Your task to perform on an android device: snooze an email in the gmail app Image 0: 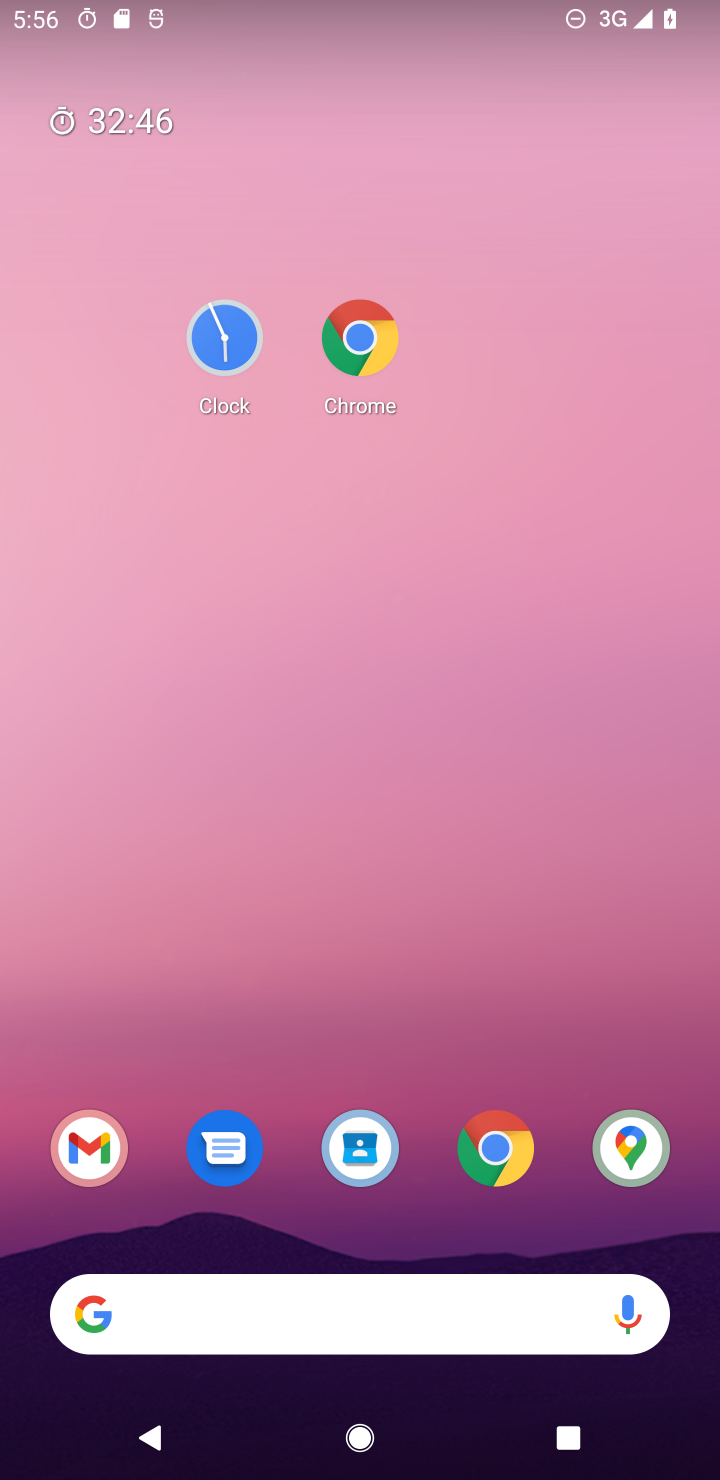
Step 0: drag from (295, 795) to (295, 538)
Your task to perform on an android device: snooze an email in the gmail app Image 1: 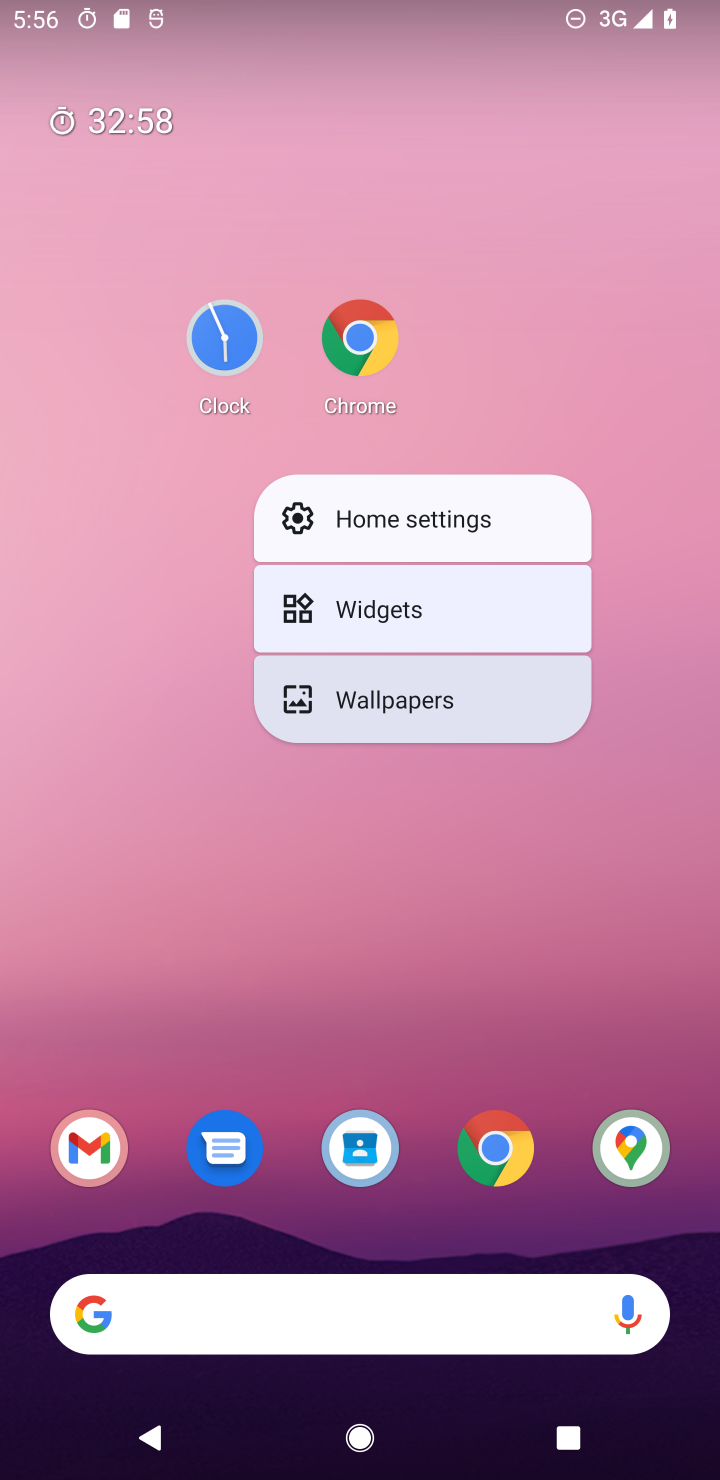
Step 1: drag from (281, 1164) to (341, 726)
Your task to perform on an android device: snooze an email in the gmail app Image 2: 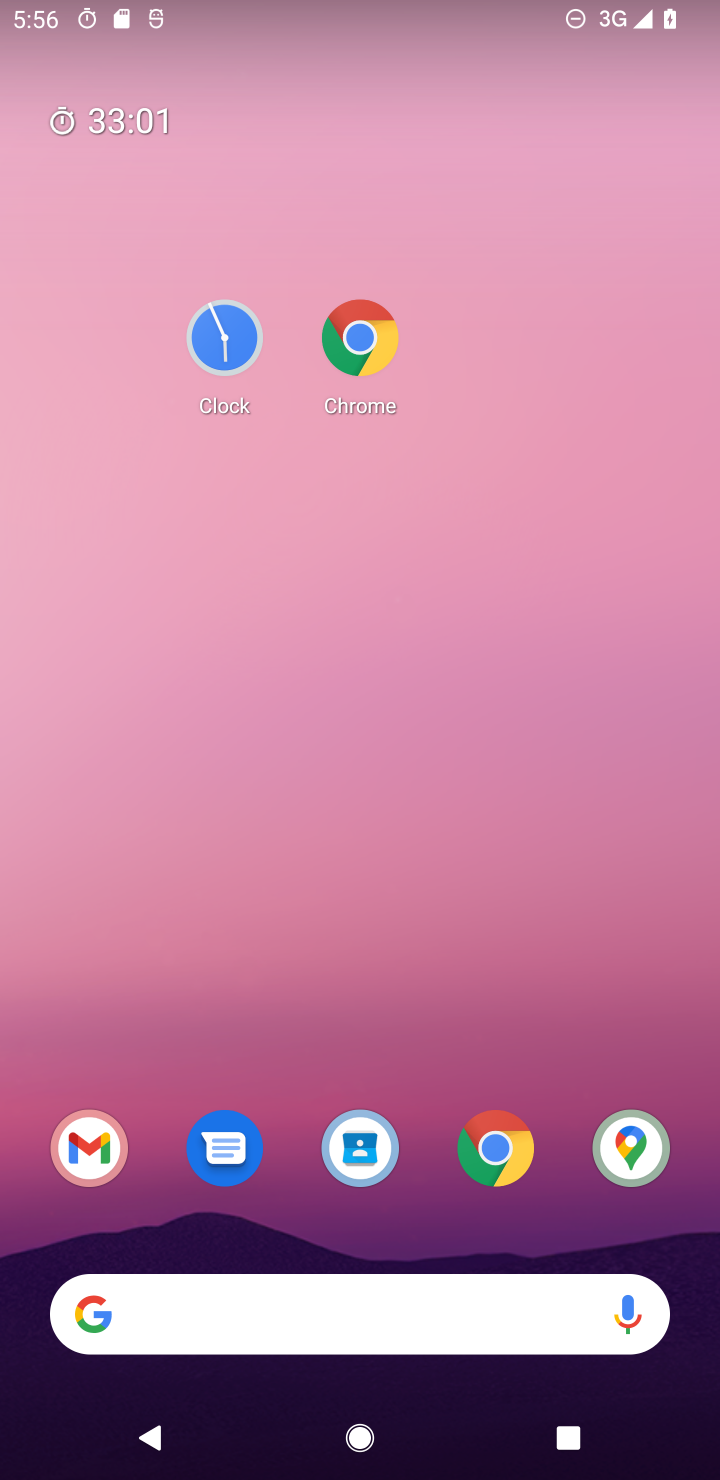
Step 2: drag from (399, 1214) to (383, 668)
Your task to perform on an android device: snooze an email in the gmail app Image 3: 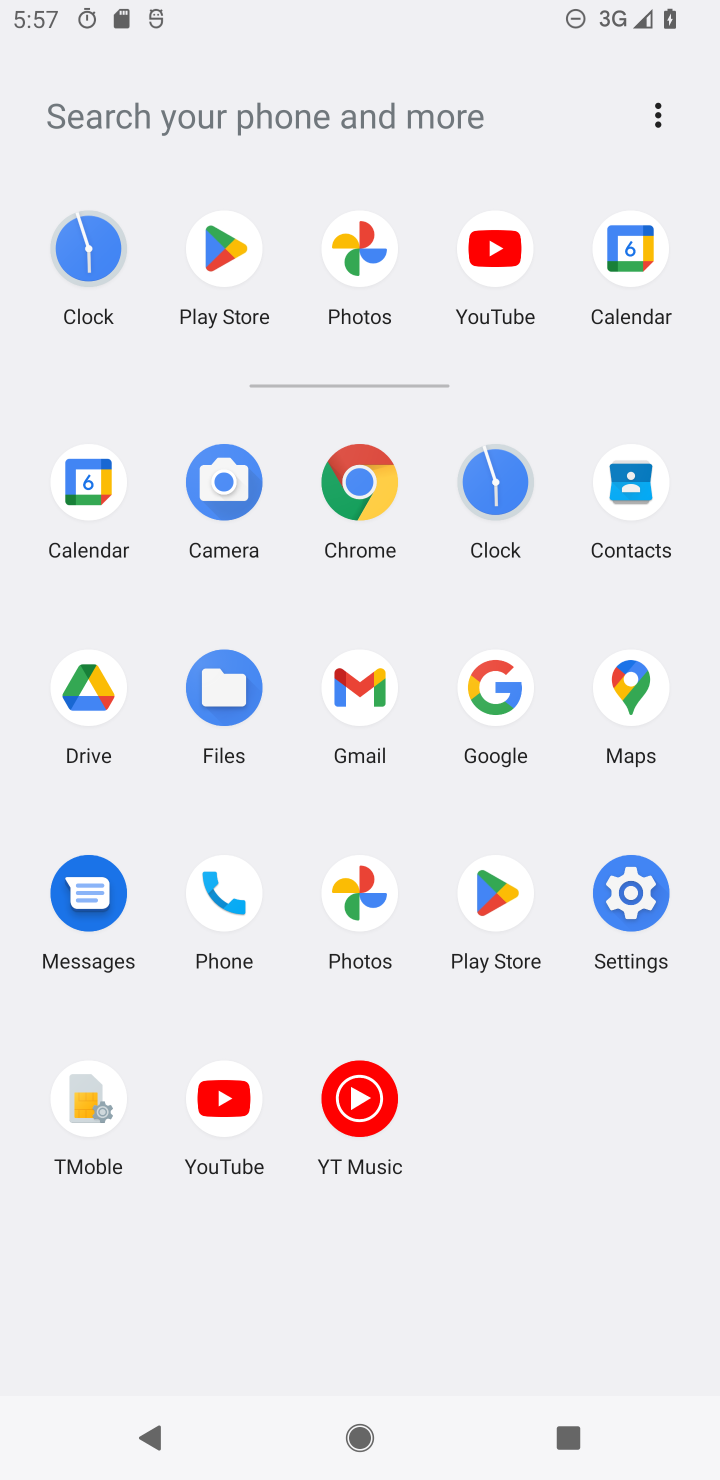
Step 3: click (338, 699)
Your task to perform on an android device: snooze an email in the gmail app Image 4: 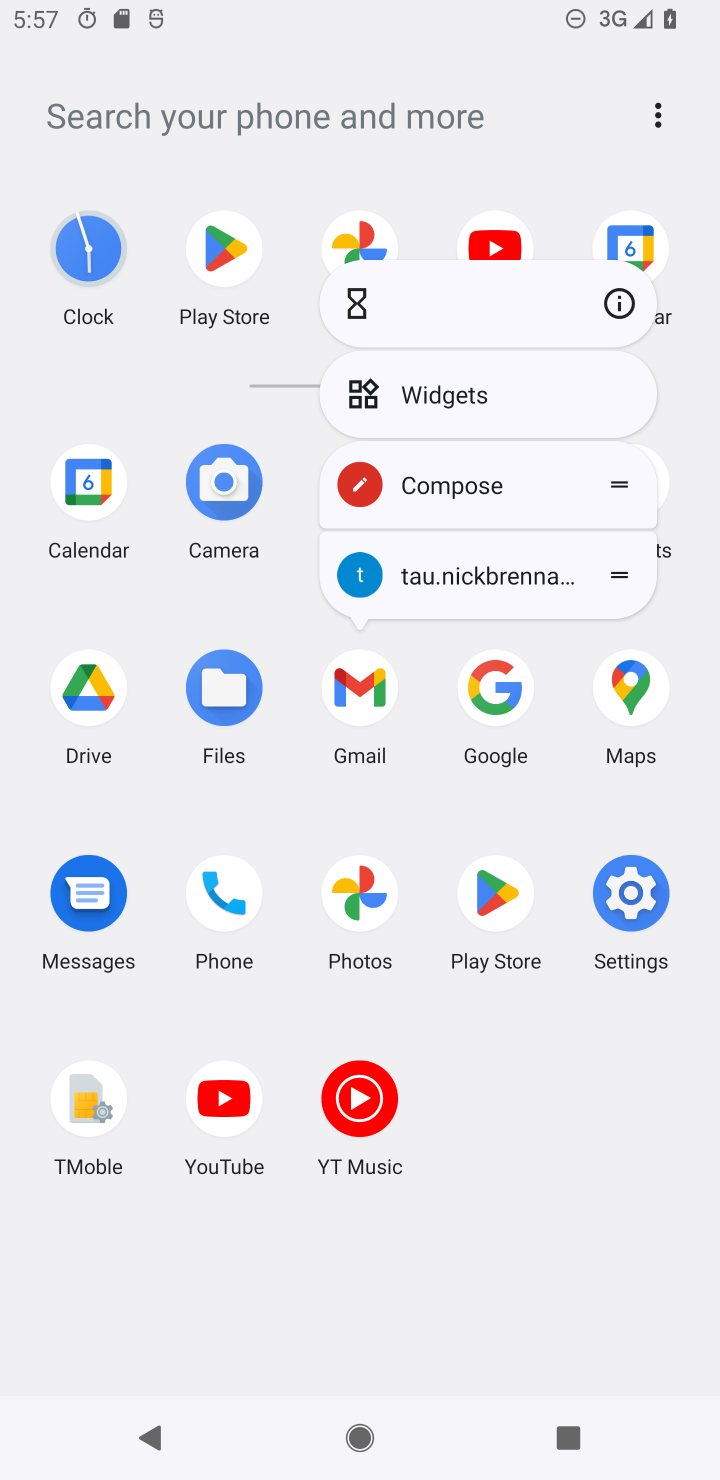
Step 4: click (605, 301)
Your task to perform on an android device: snooze an email in the gmail app Image 5: 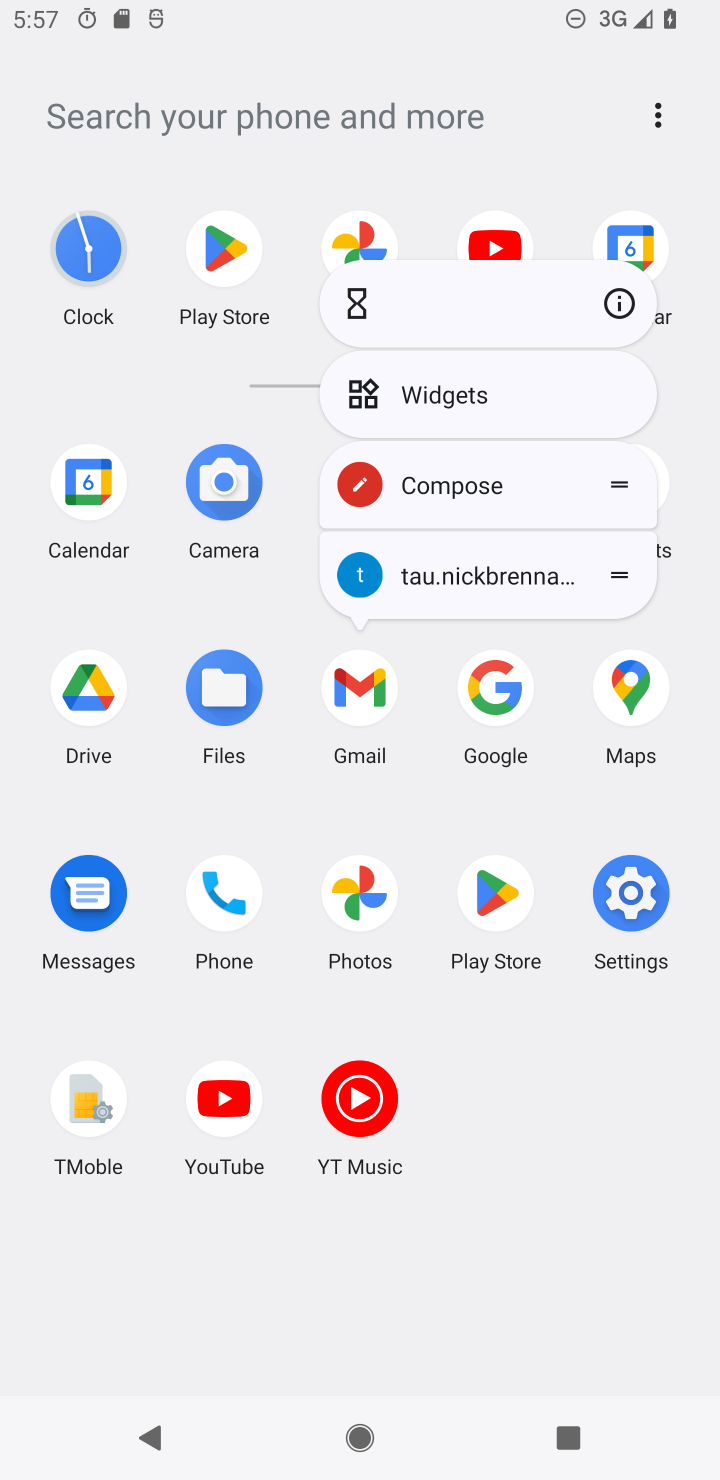
Step 5: click (607, 300)
Your task to perform on an android device: snooze an email in the gmail app Image 6: 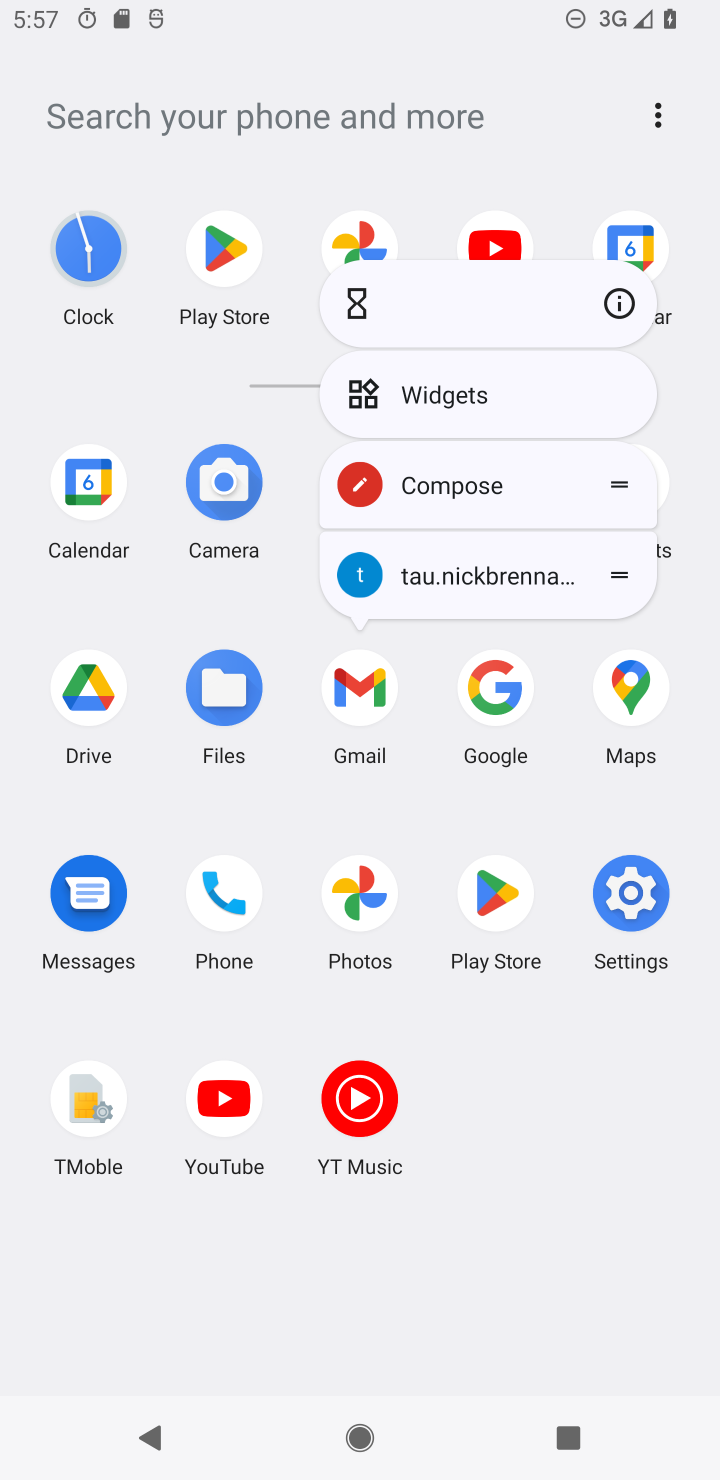
Step 6: click (619, 305)
Your task to perform on an android device: snooze an email in the gmail app Image 7: 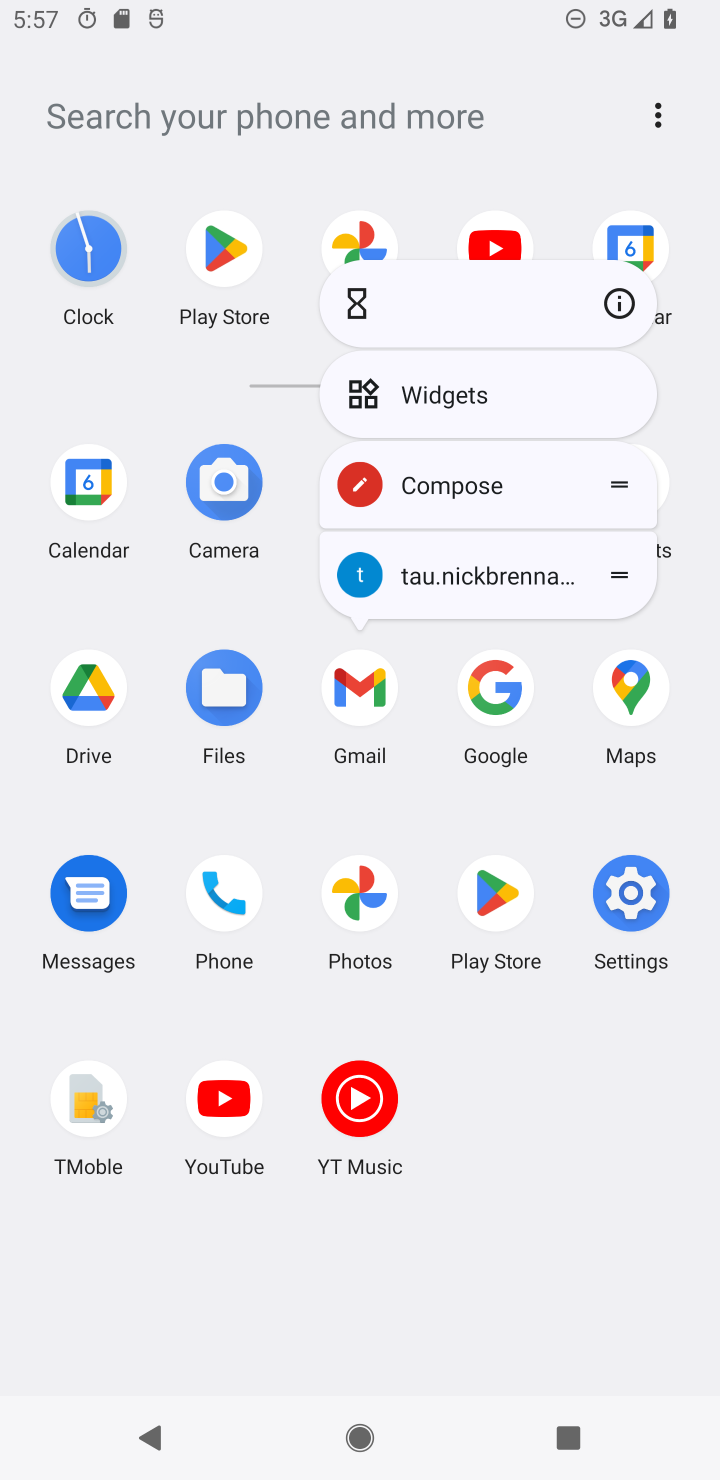
Step 7: click (619, 305)
Your task to perform on an android device: snooze an email in the gmail app Image 8: 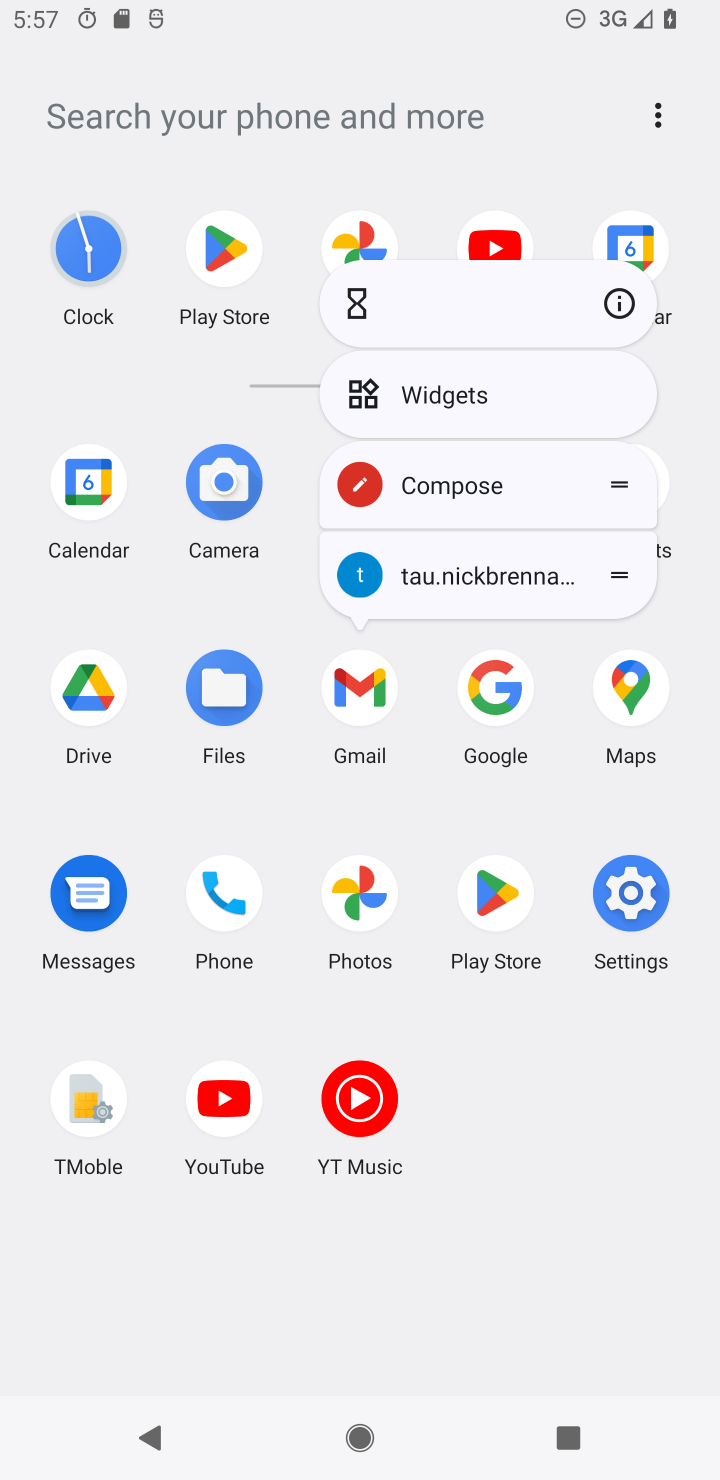
Step 8: click (619, 305)
Your task to perform on an android device: snooze an email in the gmail app Image 9: 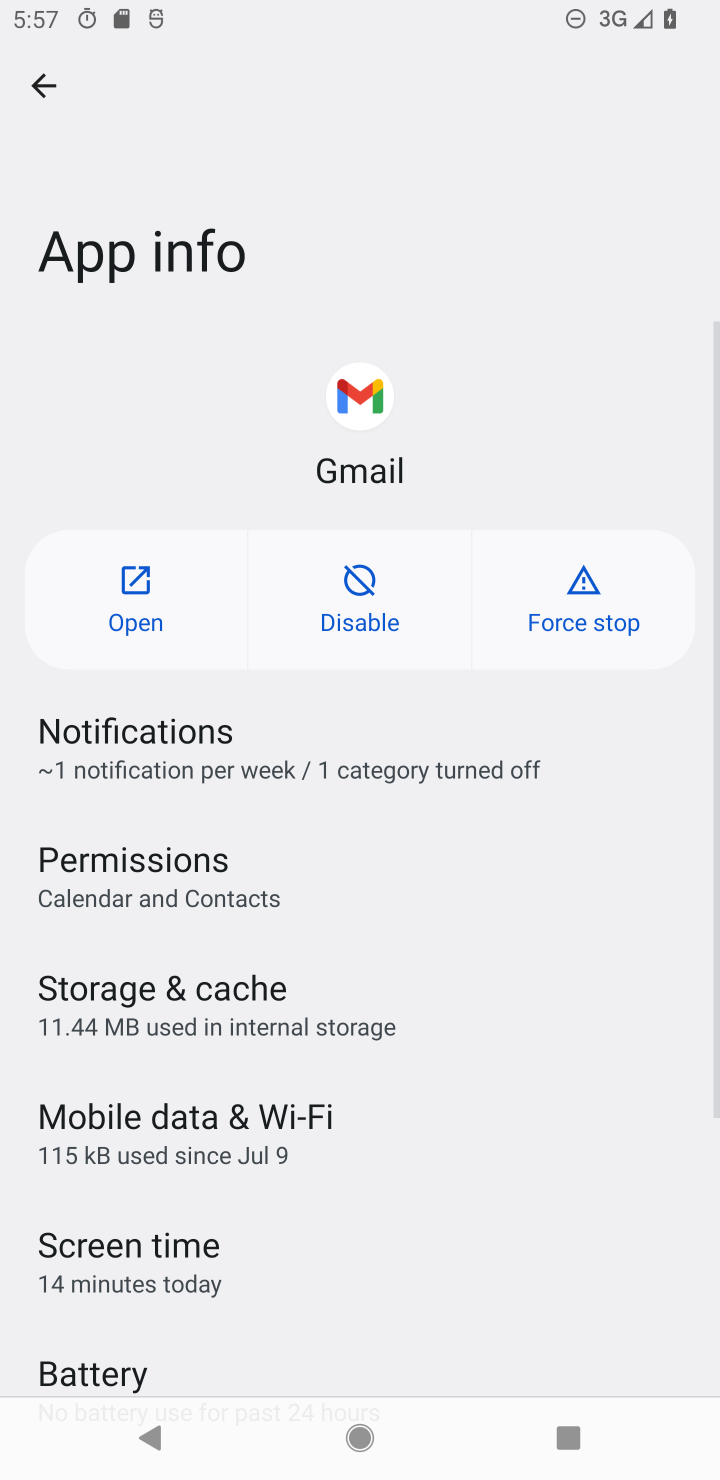
Step 9: click (124, 604)
Your task to perform on an android device: snooze an email in the gmail app Image 10: 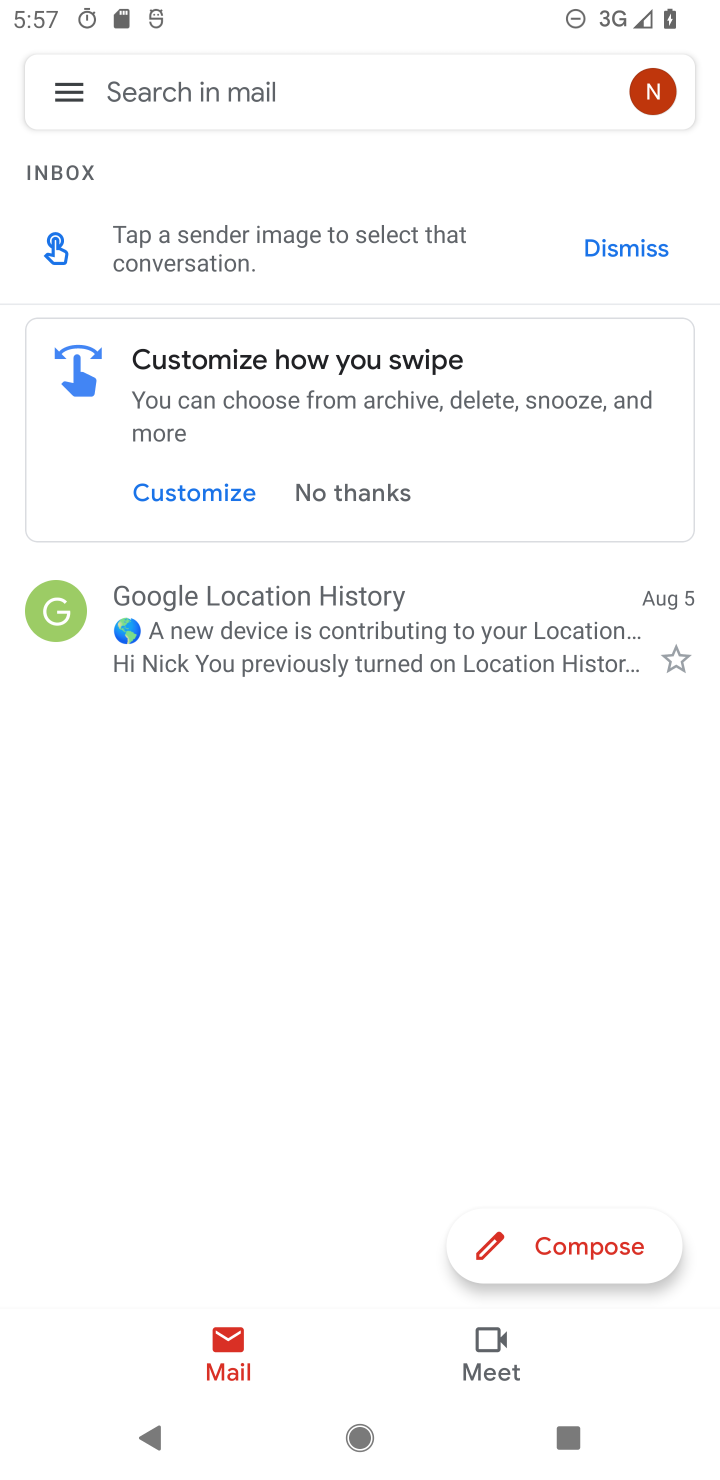
Step 10: drag from (430, 1037) to (634, 444)
Your task to perform on an android device: snooze an email in the gmail app Image 11: 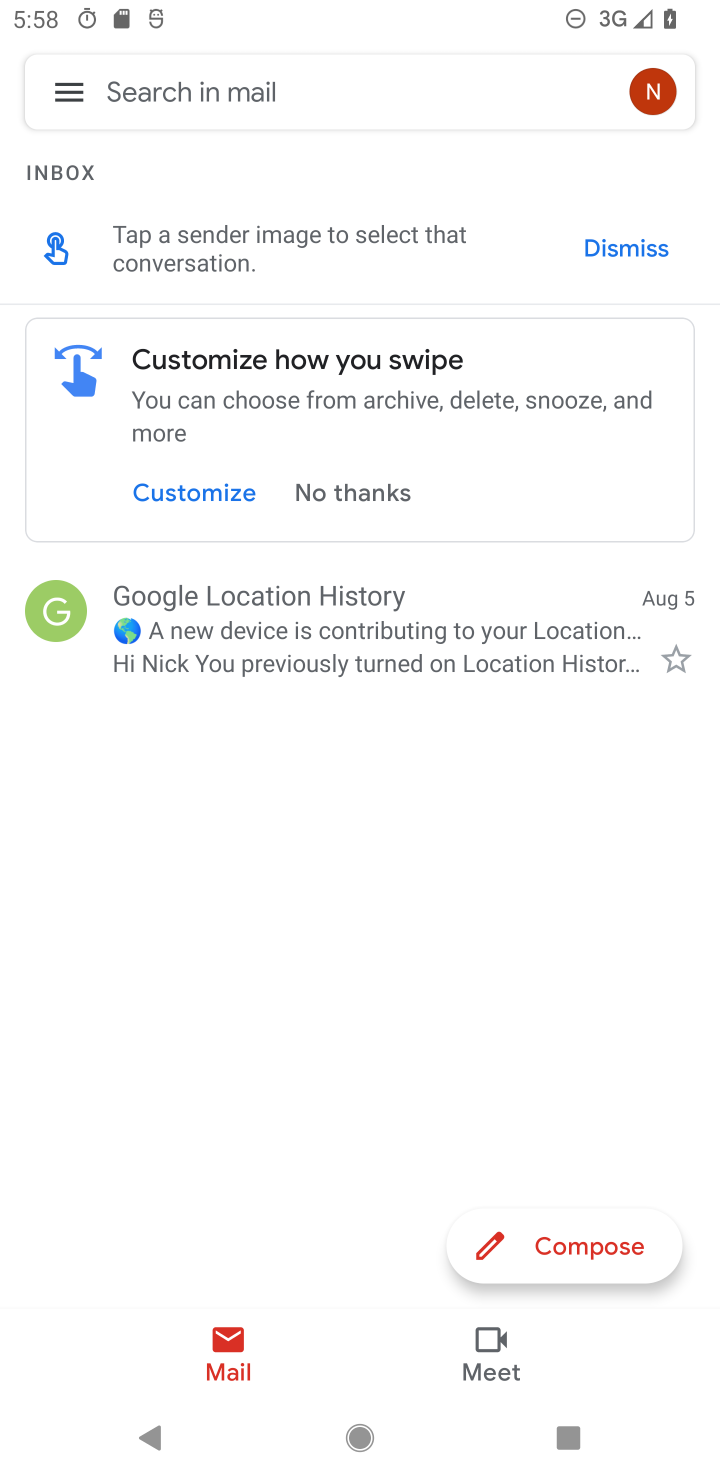
Step 11: click (67, 105)
Your task to perform on an android device: snooze an email in the gmail app Image 12: 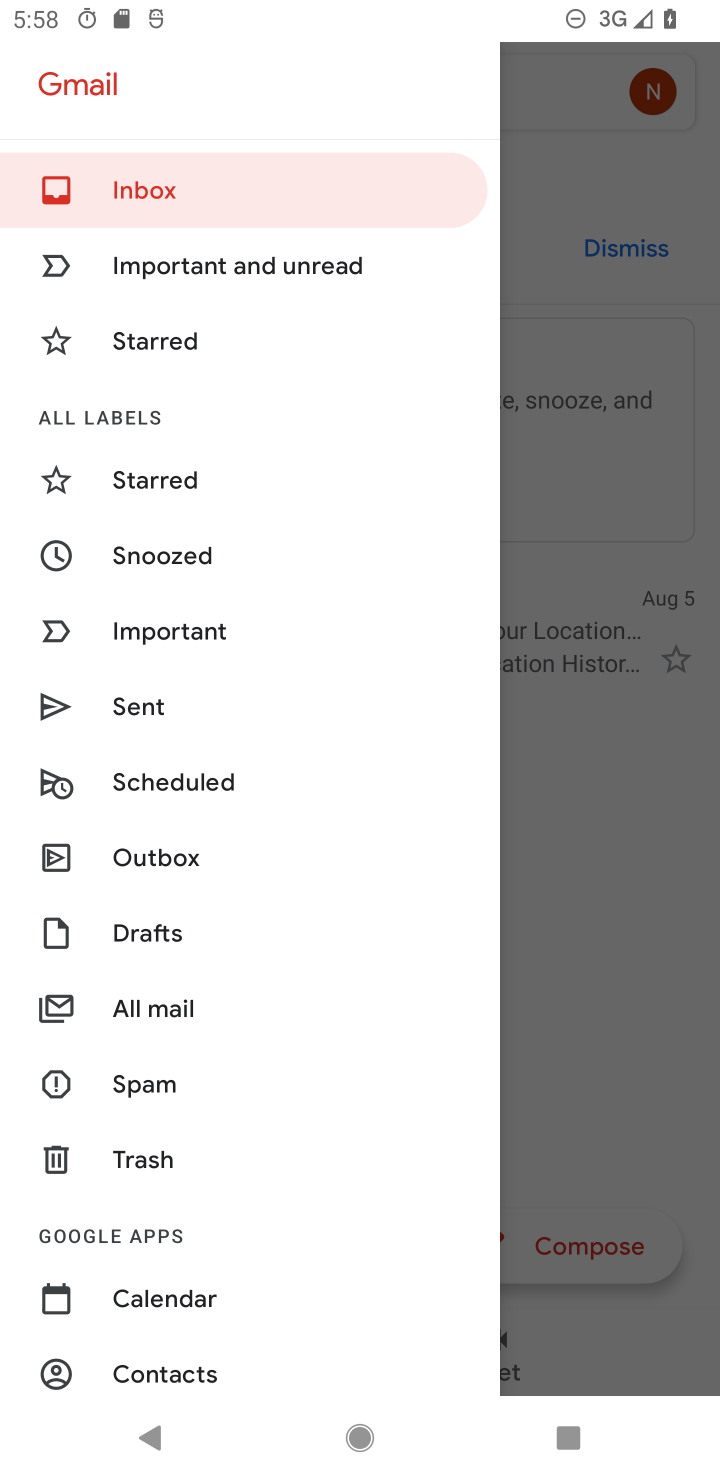
Step 12: drag from (288, 1232) to (443, 313)
Your task to perform on an android device: snooze an email in the gmail app Image 13: 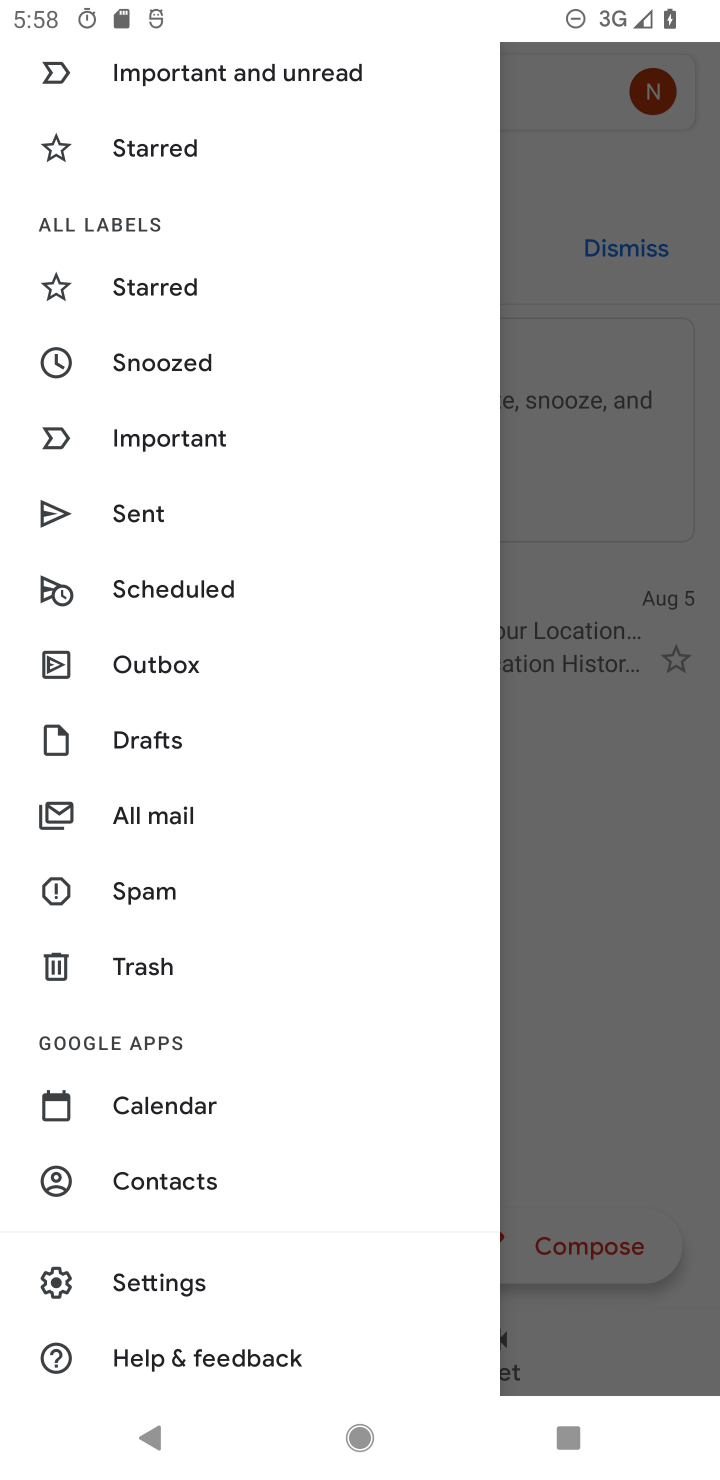
Step 13: drag from (245, 1228) to (272, 620)
Your task to perform on an android device: snooze an email in the gmail app Image 14: 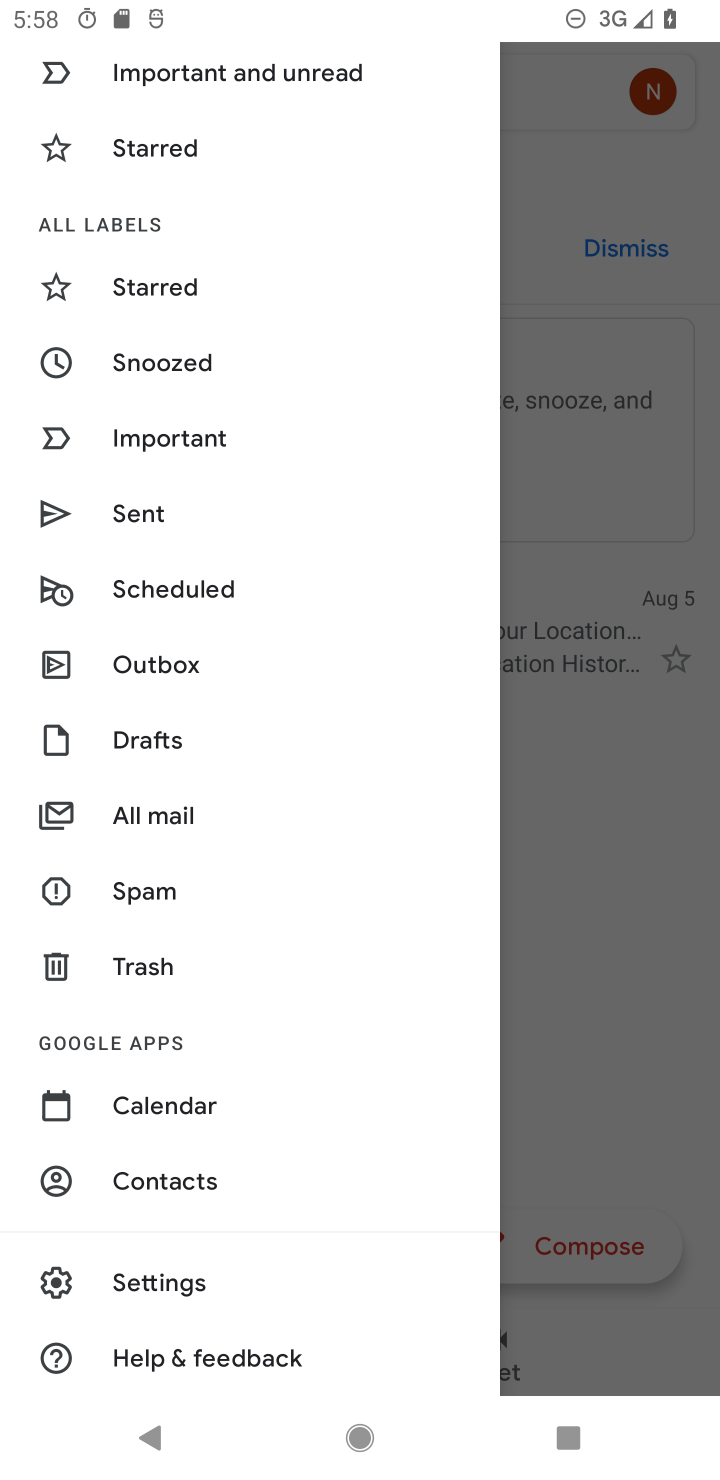
Step 14: drag from (230, 1250) to (295, 682)
Your task to perform on an android device: snooze an email in the gmail app Image 15: 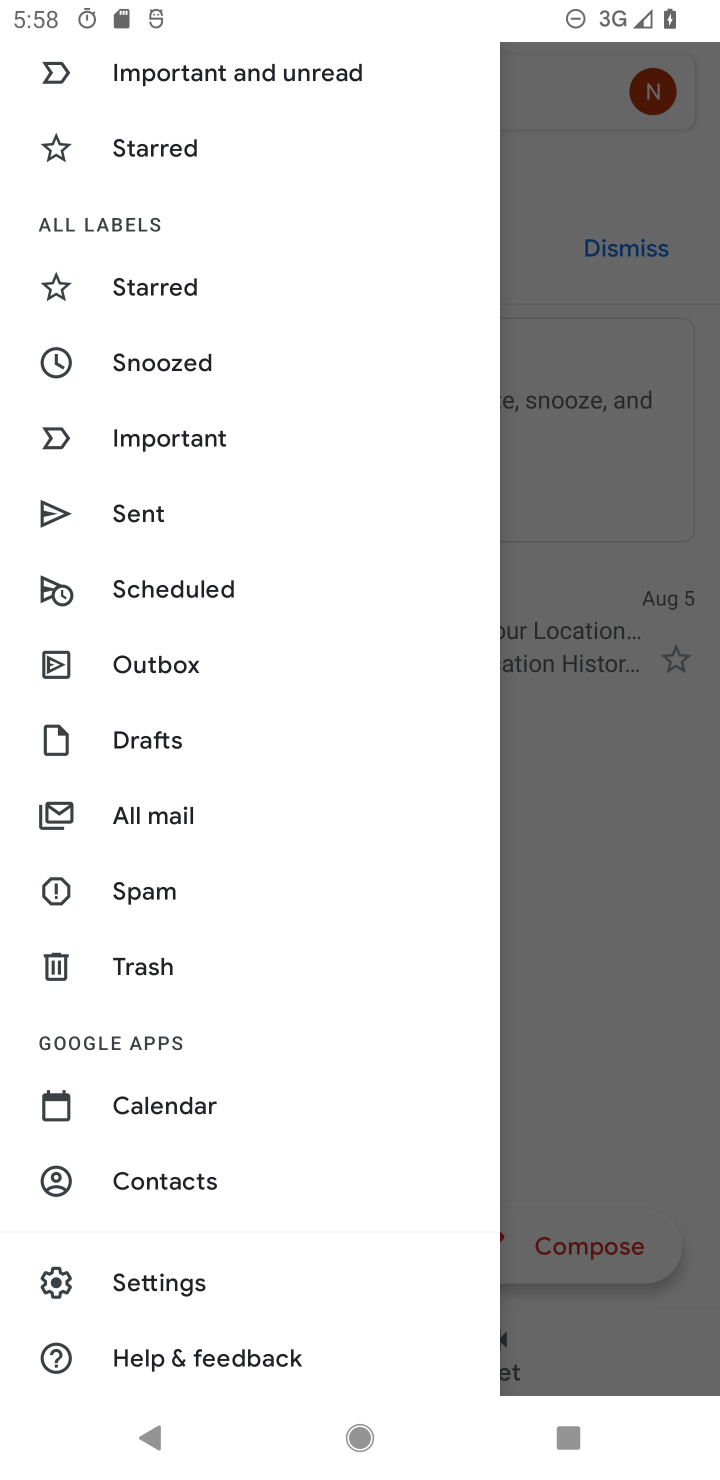
Step 15: drag from (250, 274) to (322, 1119)
Your task to perform on an android device: snooze an email in the gmail app Image 16: 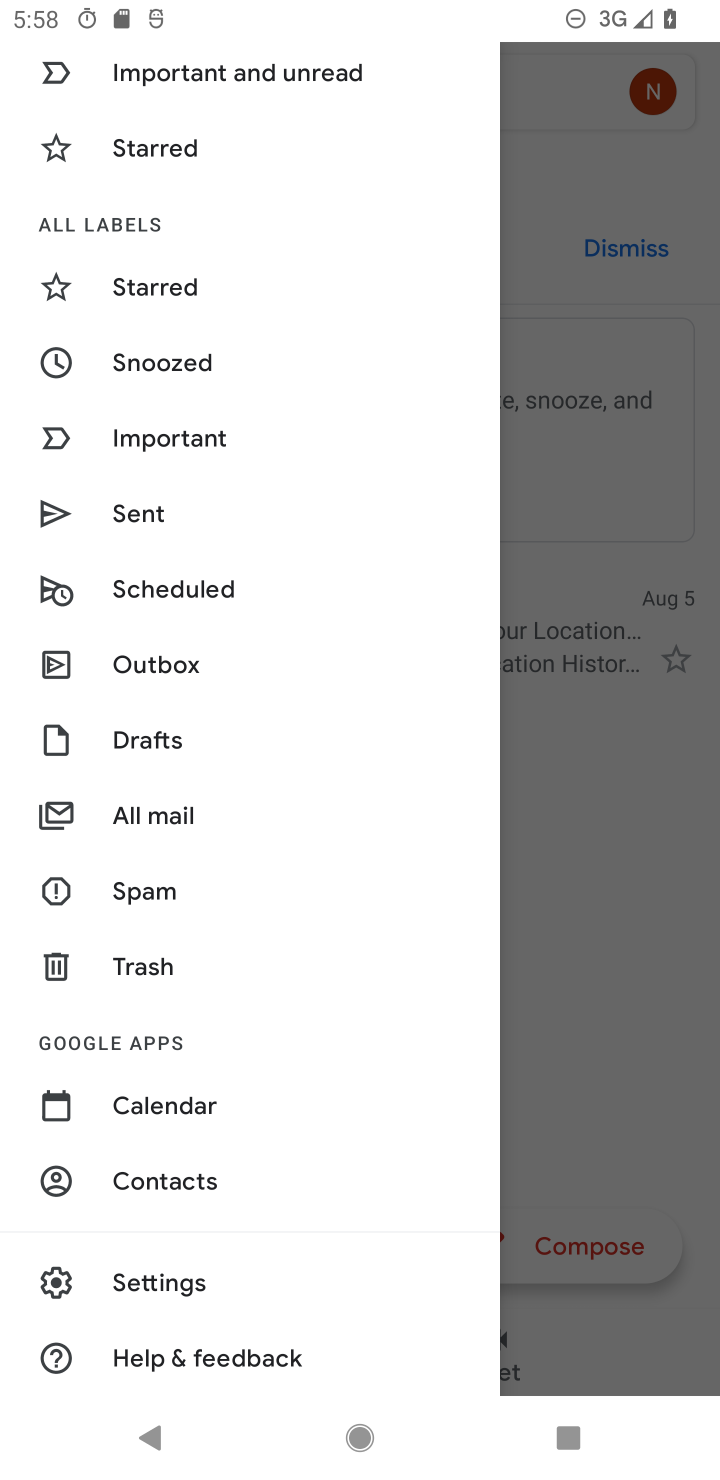
Step 16: drag from (249, 367) to (332, 1240)
Your task to perform on an android device: snooze an email in the gmail app Image 17: 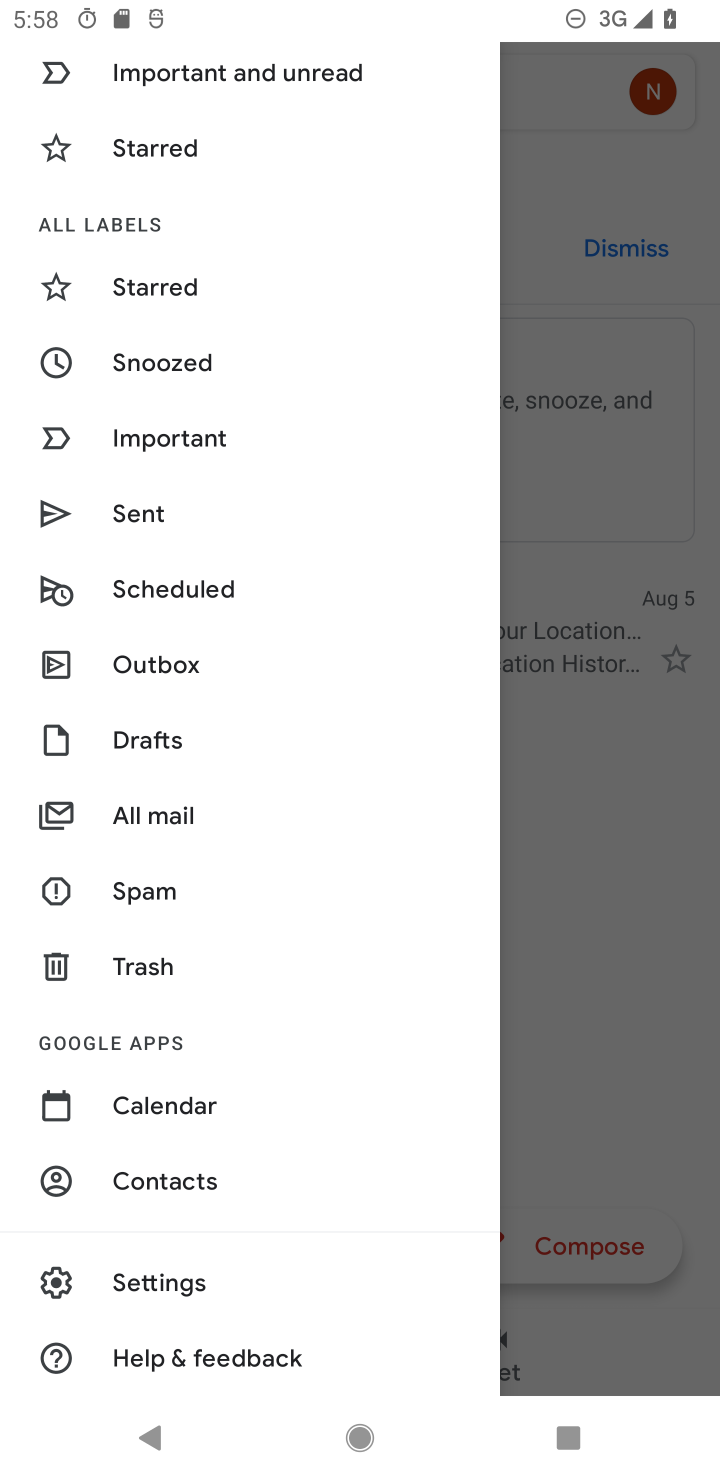
Step 17: drag from (236, 382) to (249, 1336)
Your task to perform on an android device: snooze an email in the gmail app Image 18: 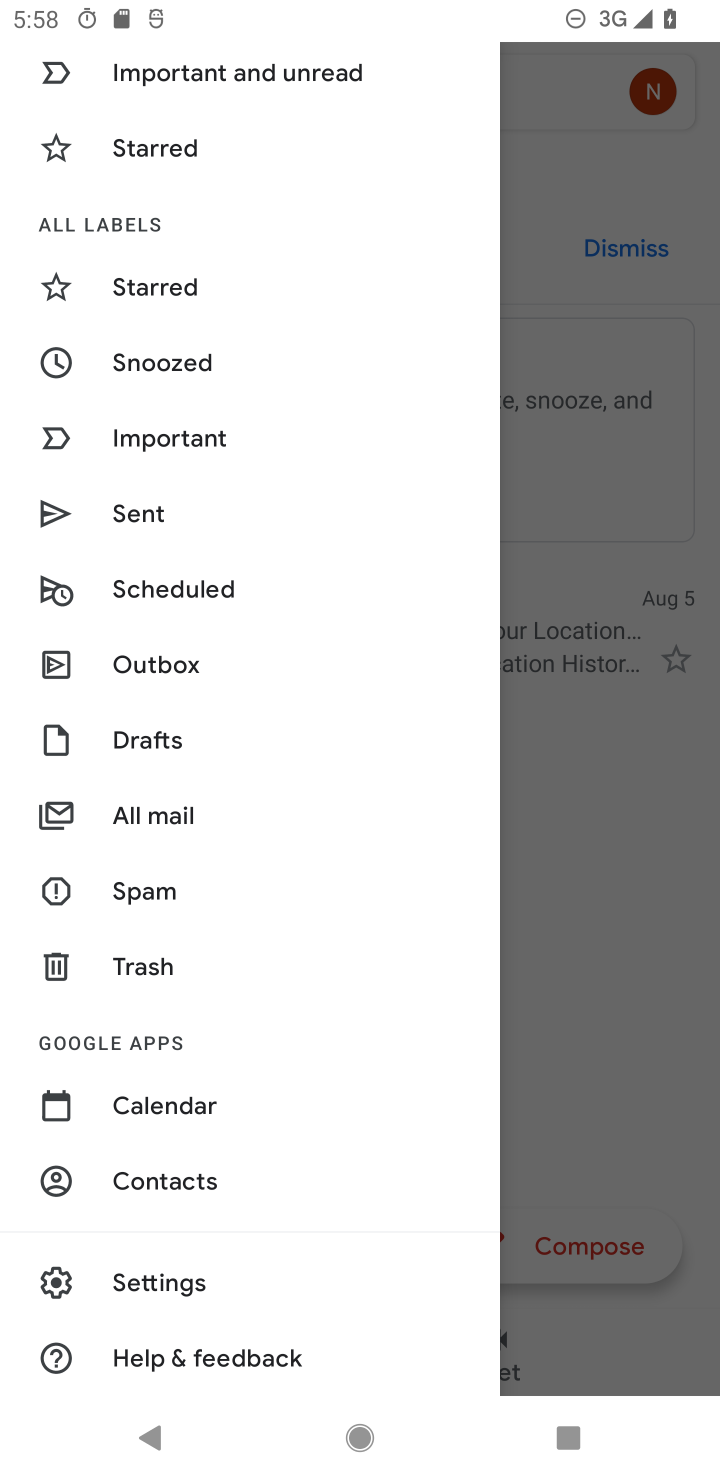
Step 18: drag from (309, 235) to (300, 1075)
Your task to perform on an android device: snooze an email in the gmail app Image 19: 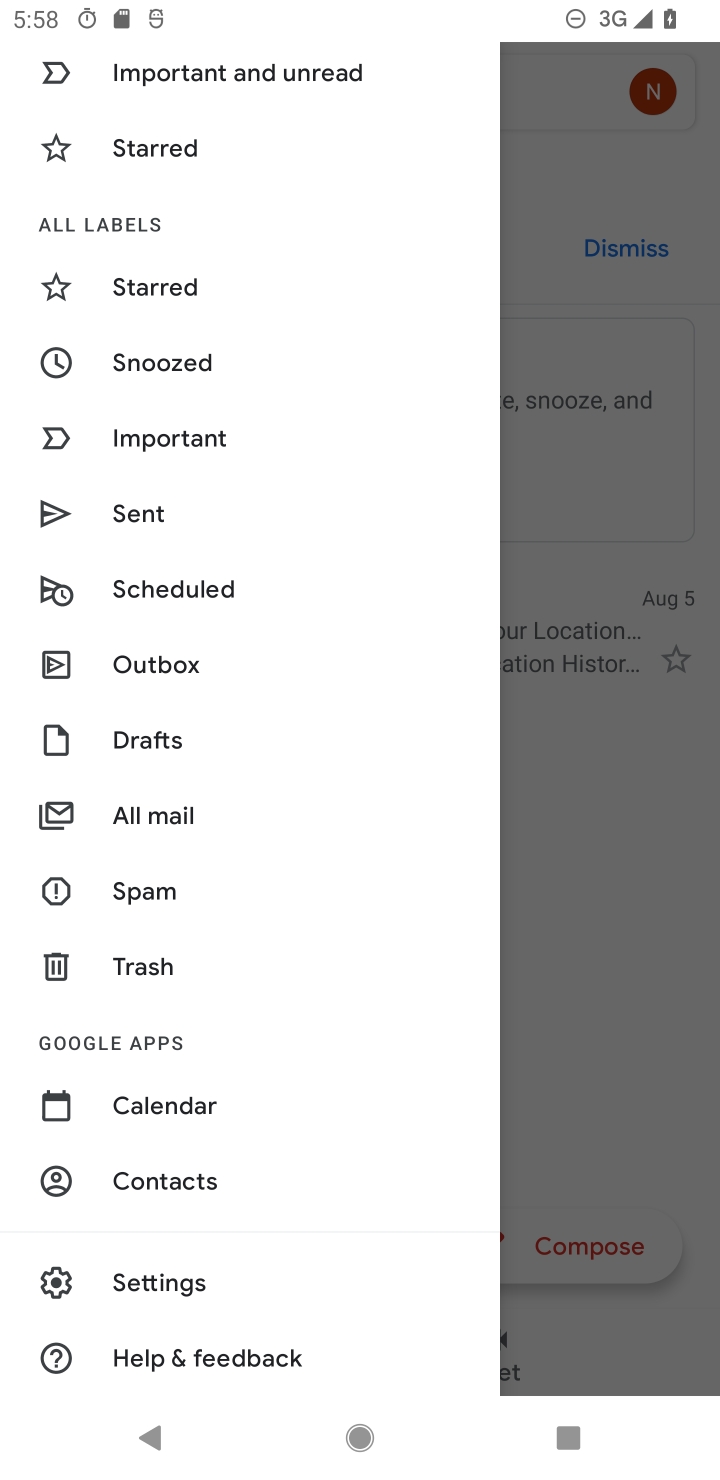
Step 19: drag from (275, 288) to (268, 1321)
Your task to perform on an android device: snooze an email in the gmail app Image 20: 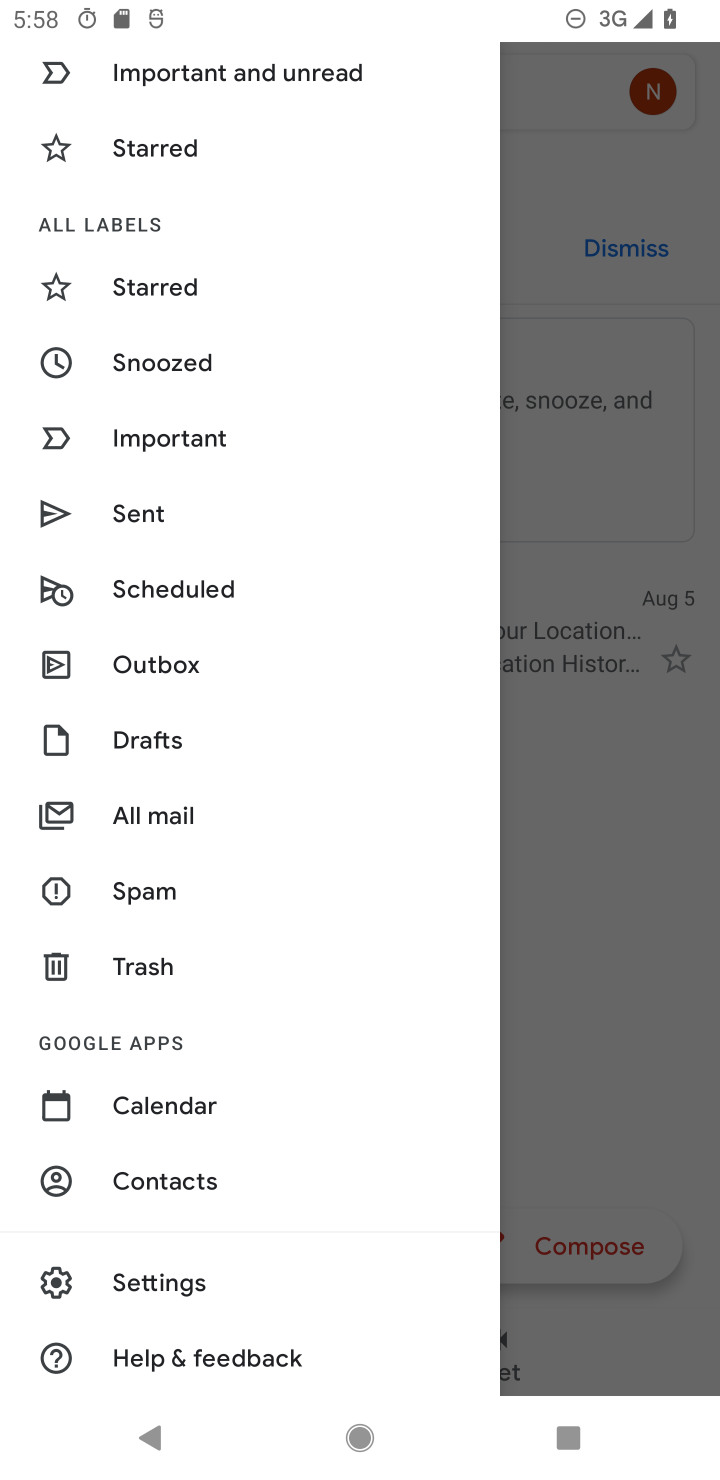
Step 20: drag from (247, 372) to (687, 479)
Your task to perform on an android device: snooze an email in the gmail app Image 21: 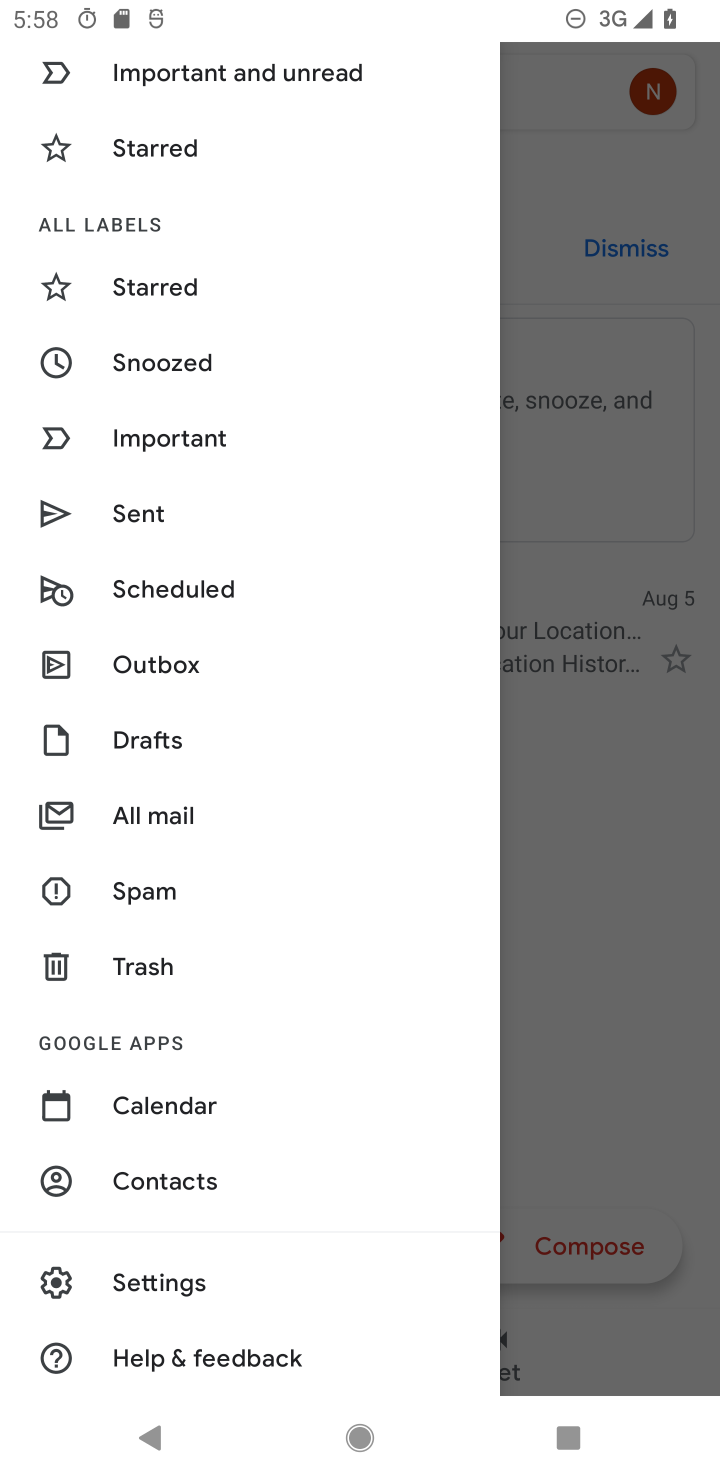
Step 21: drag from (240, 181) to (326, 1293)
Your task to perform on an android device: snooze an email in the gmail app Image 22: 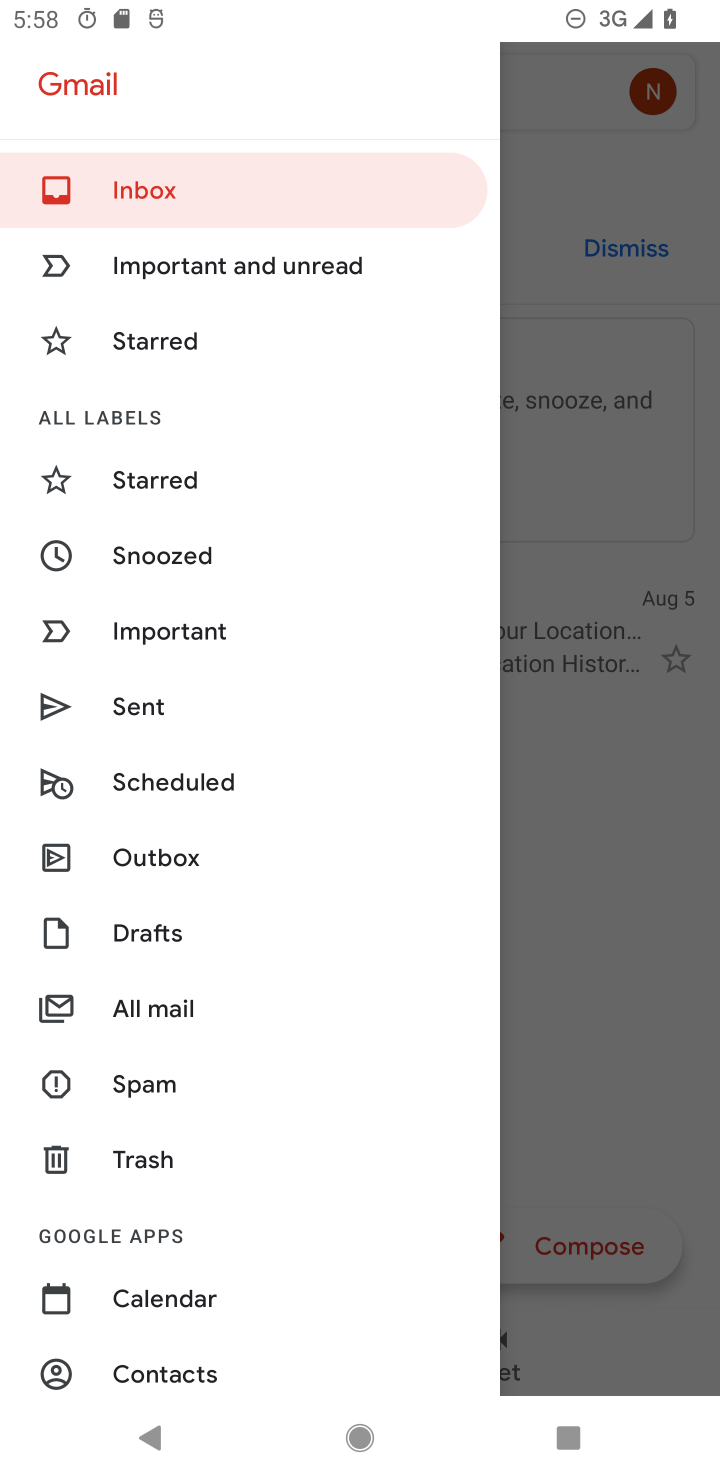
Step 22: click (244, 191)
Your task to perform on an android device: snooze an email in the gmail app Image 23: 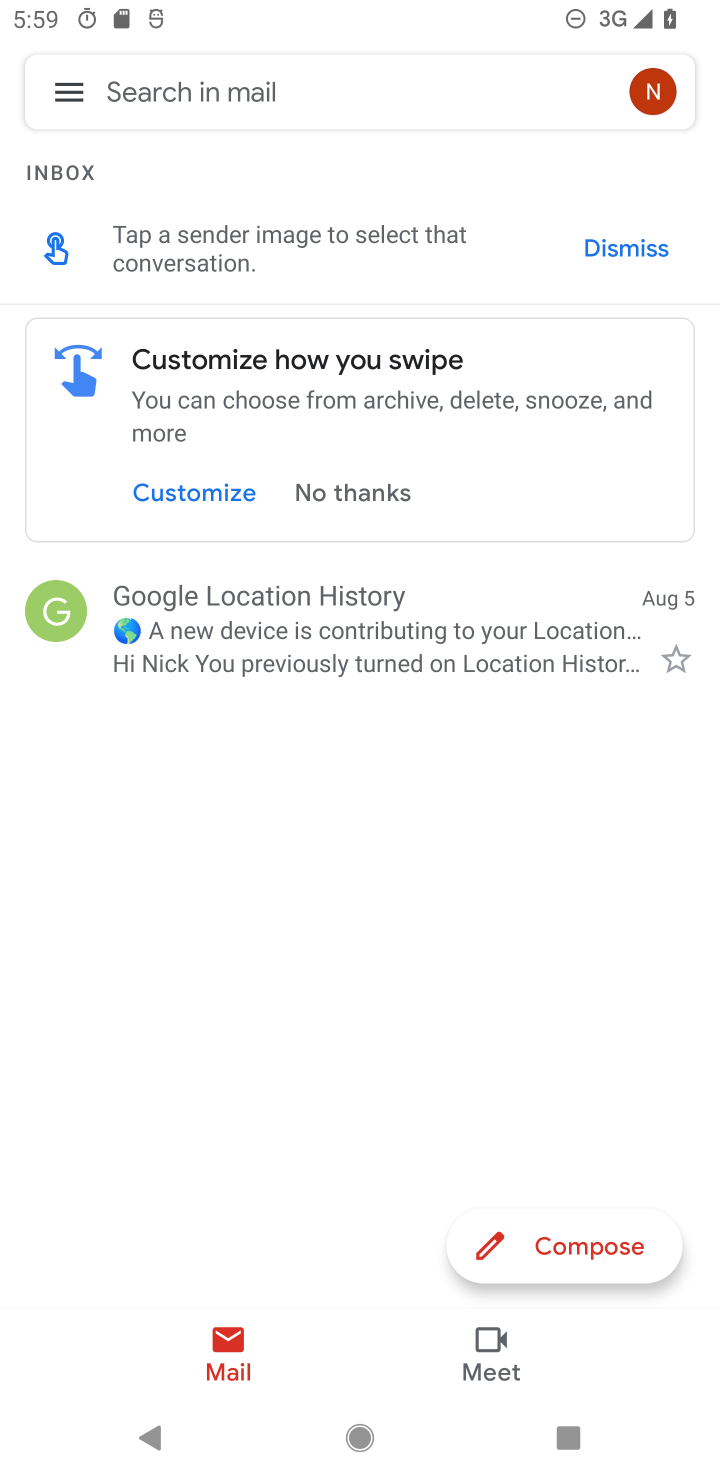
Step 23: click (73, 108)
Your task to perform on an android device: snooze an email in the gmail app Image 24: 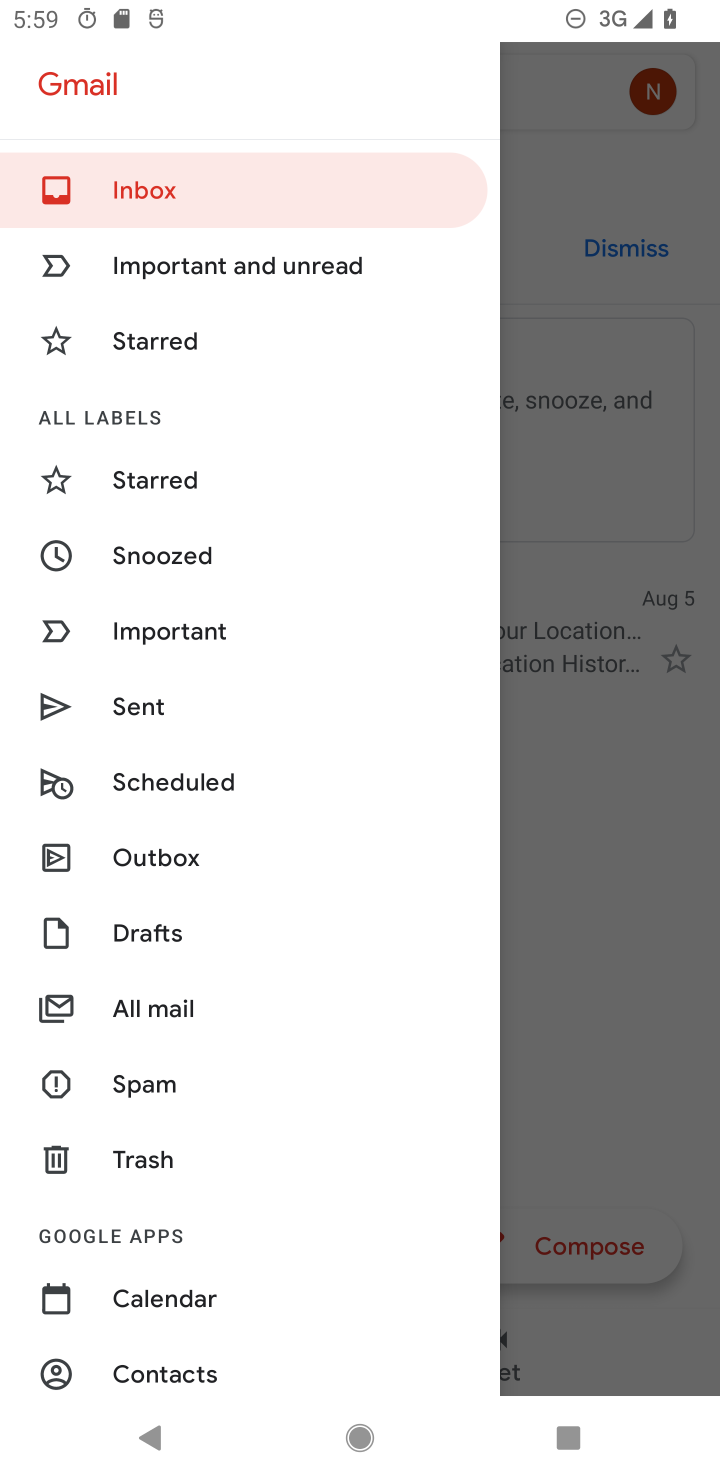
Step 24: click (576, 862)
Your task to perform on an android device: snooze an email in the gmail app Image 25: 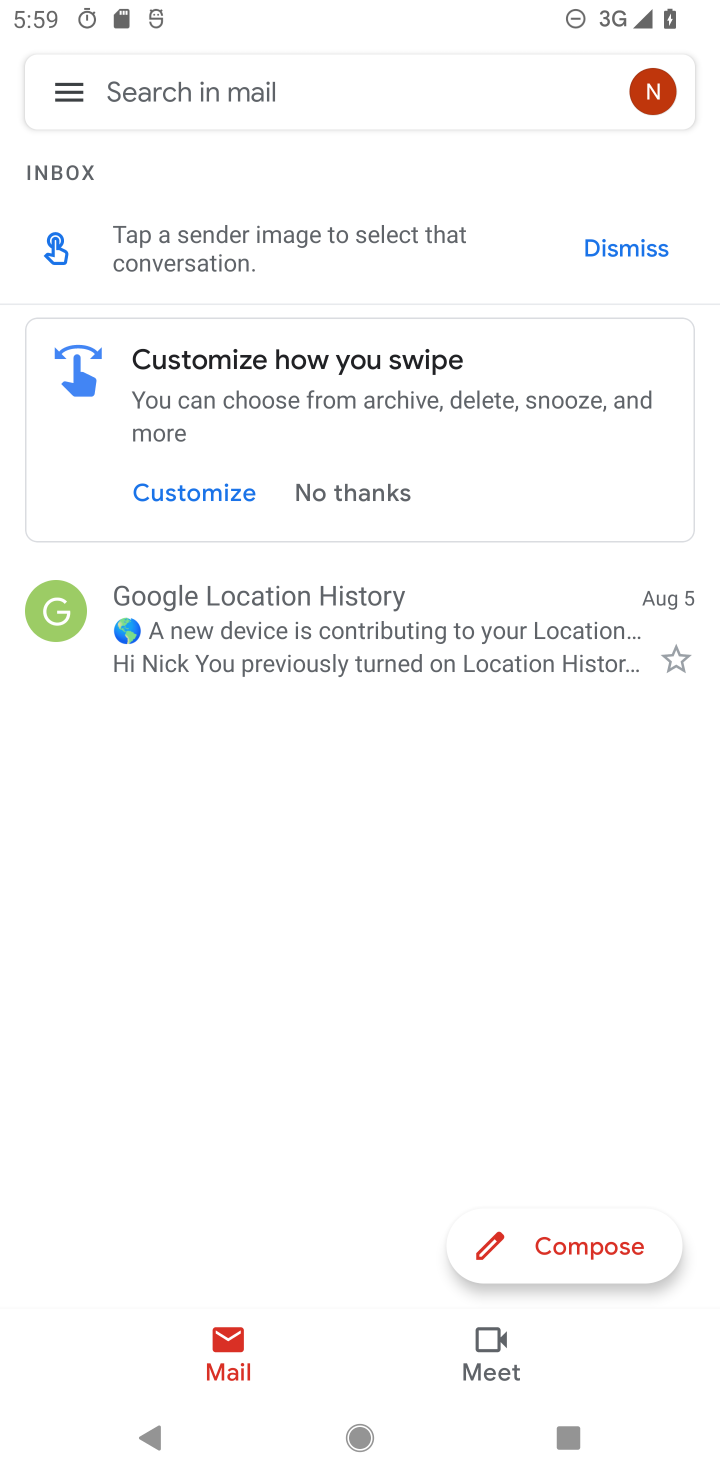
Step 25: click (410, 661)
Your task to perform on an android device: snooze an email in the gmail app Image 26: 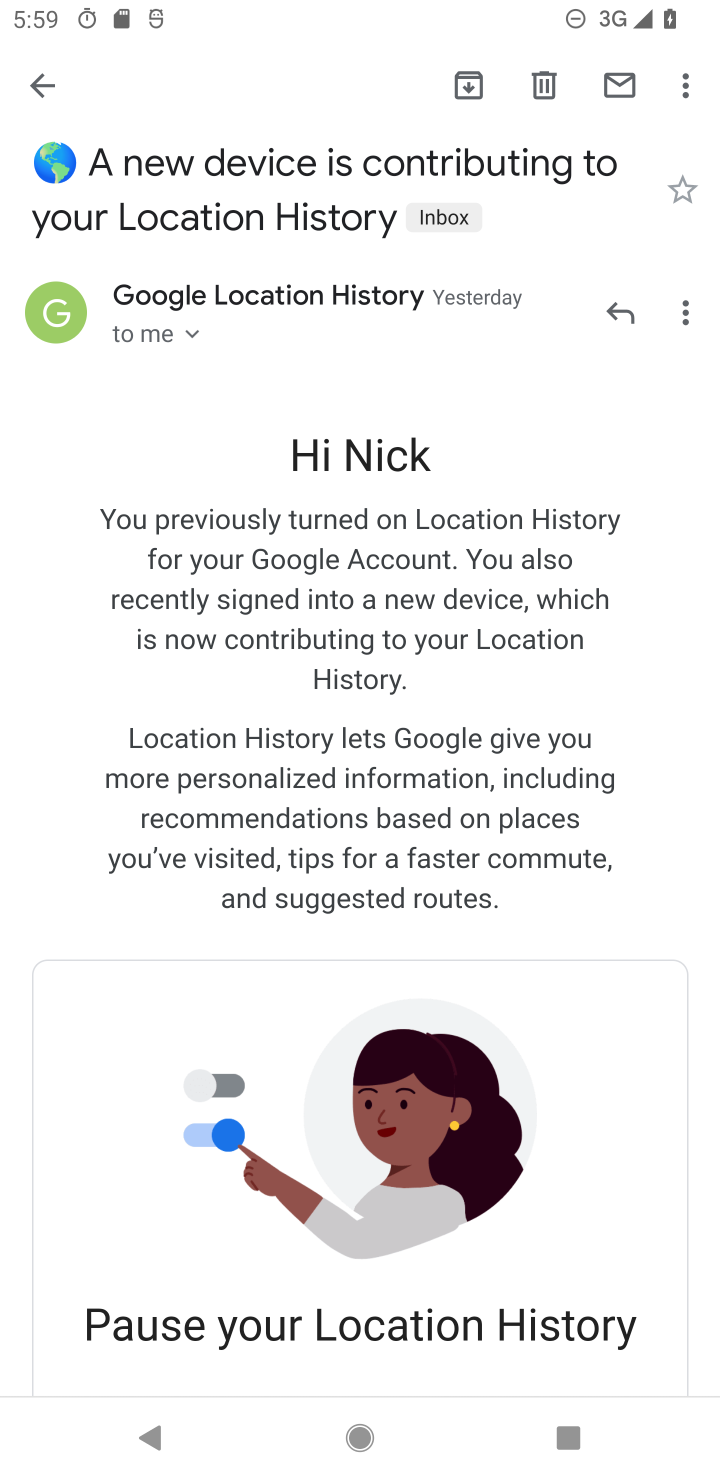
Step 26: drag from (681, 85) to (508, 173)
Your task to perform on an android device: snooze an email in the gmail app Image 27: 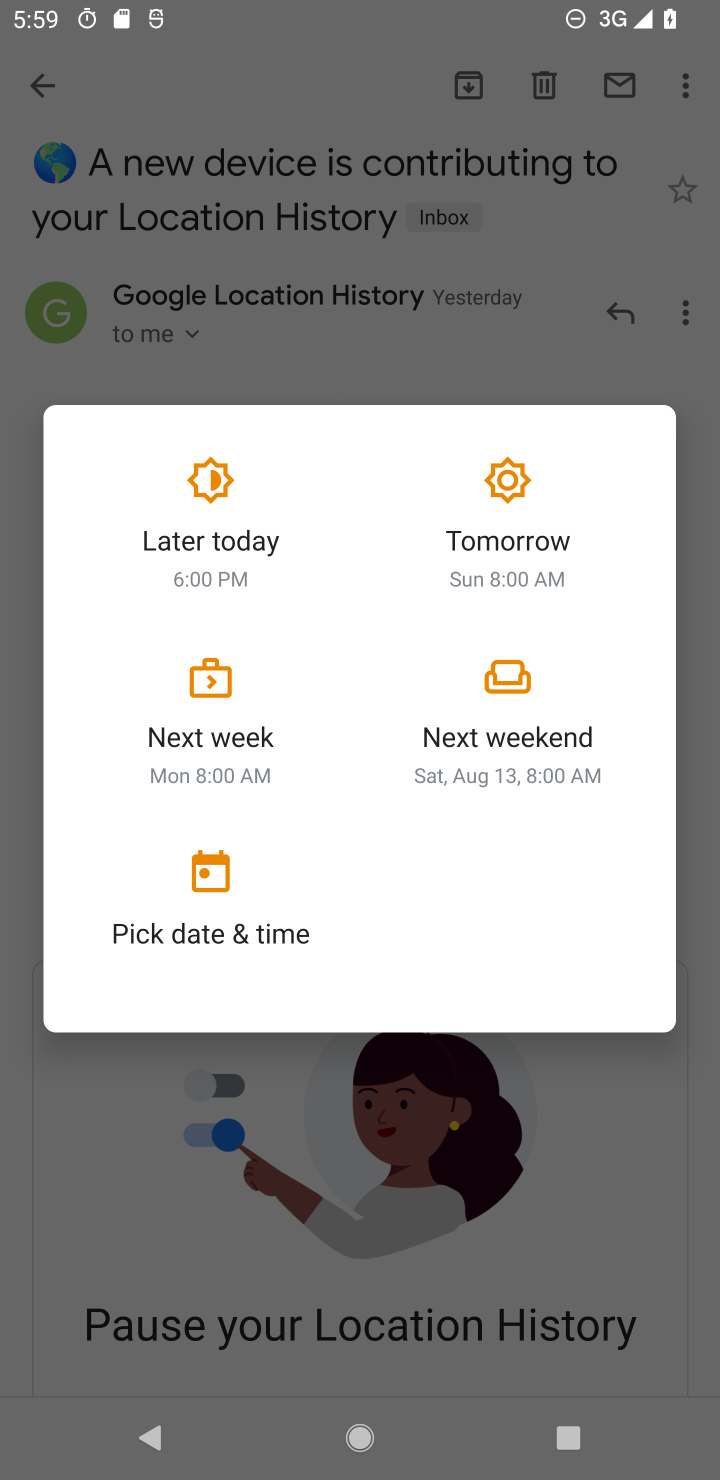
Step 27: click (227, 561)
Your task to perform on an android device: snooze an email in the gmail app Image 28: 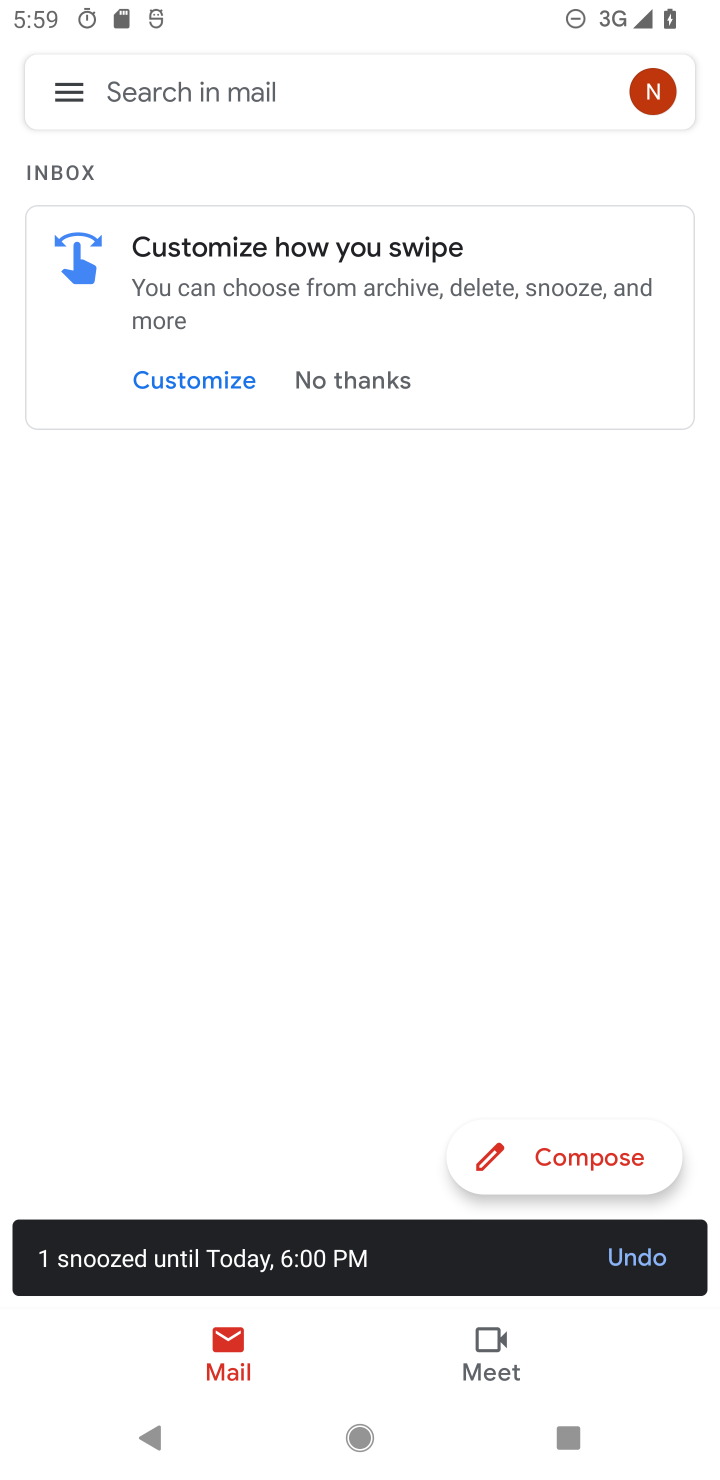
Step 28: drag from (433, 837) to (476, 389)
Your task to perform on an android device: snooze an email in the gmail app Image 29: 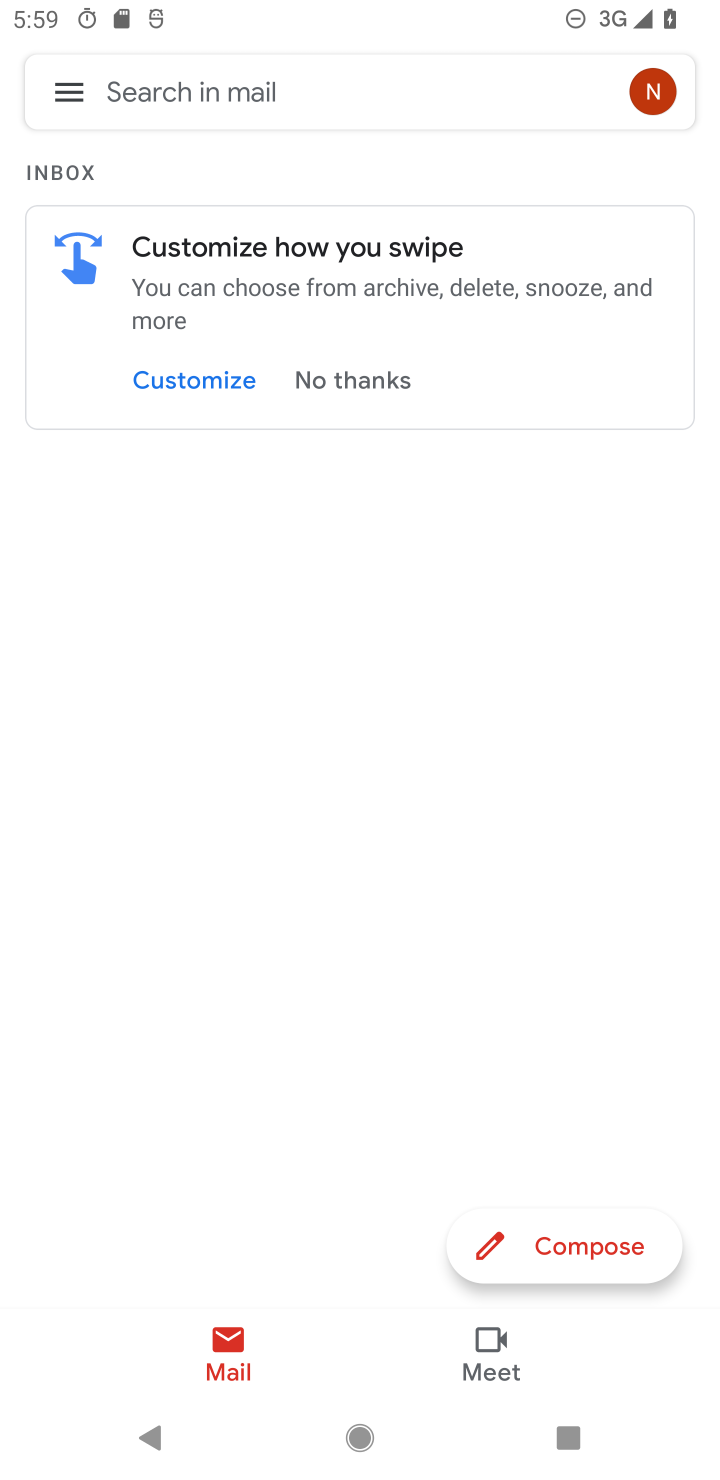
Step 29: drag from (230, 939) to (349, 508)
Your task to perform on an android device: snooze an email in the gmail app Image 30: 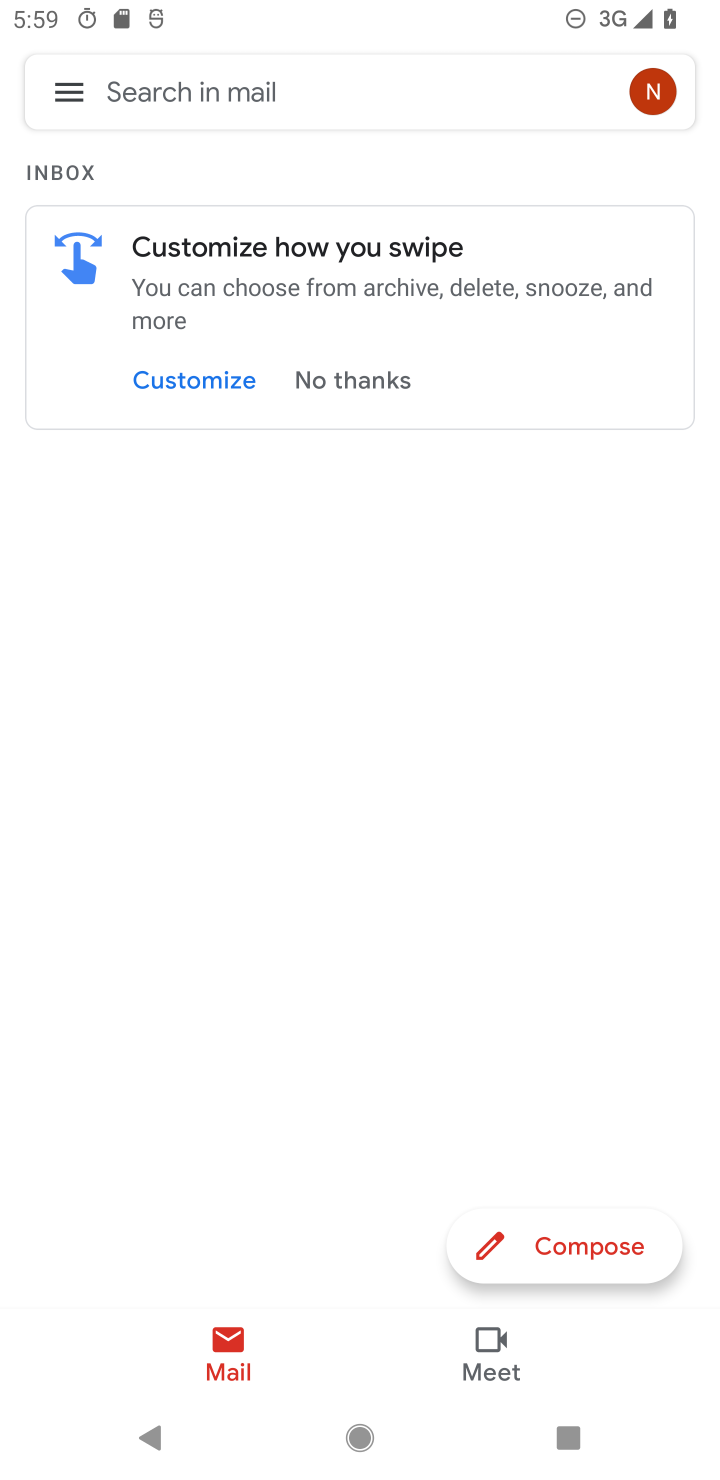
Step 30: click (77, 110)
Your task to perform on an android device: snooze an email in the gmail app Image 31: 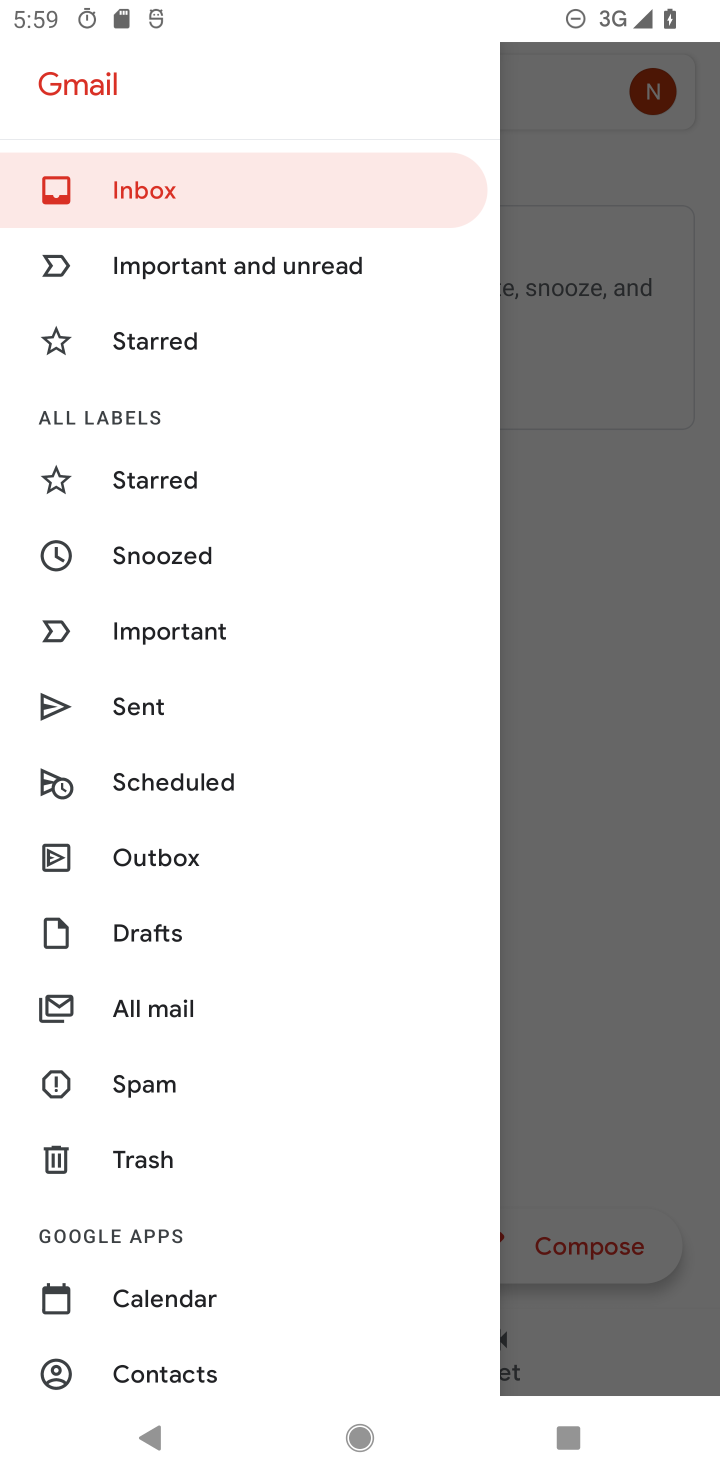
Step 31: click (605, 945)
Your task to perform on an android device: snooze an email in the gmail app Image 32: 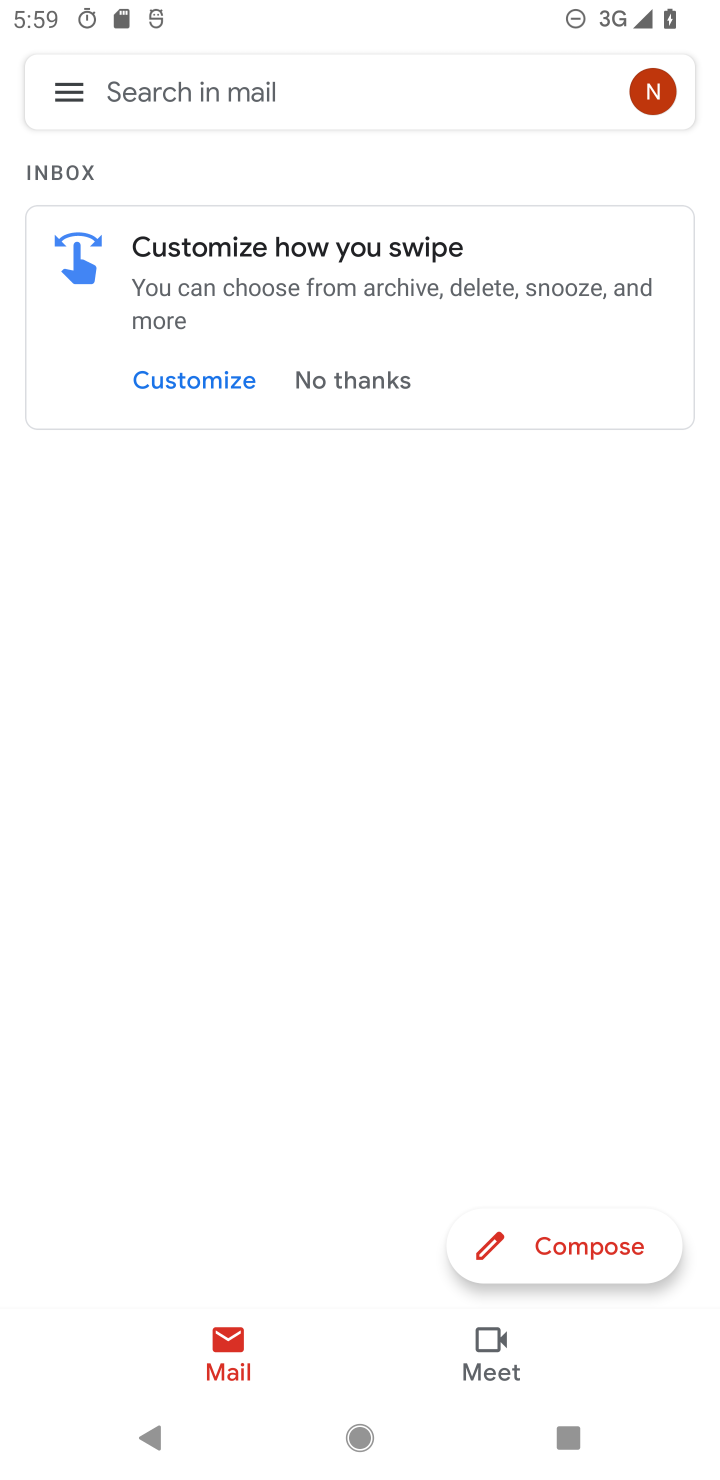
Step 32: task complete